Your task to perform on an android device: Show the shopping cart on target. Add "dell xps" to the cart on target, then select checkout. Image 0: 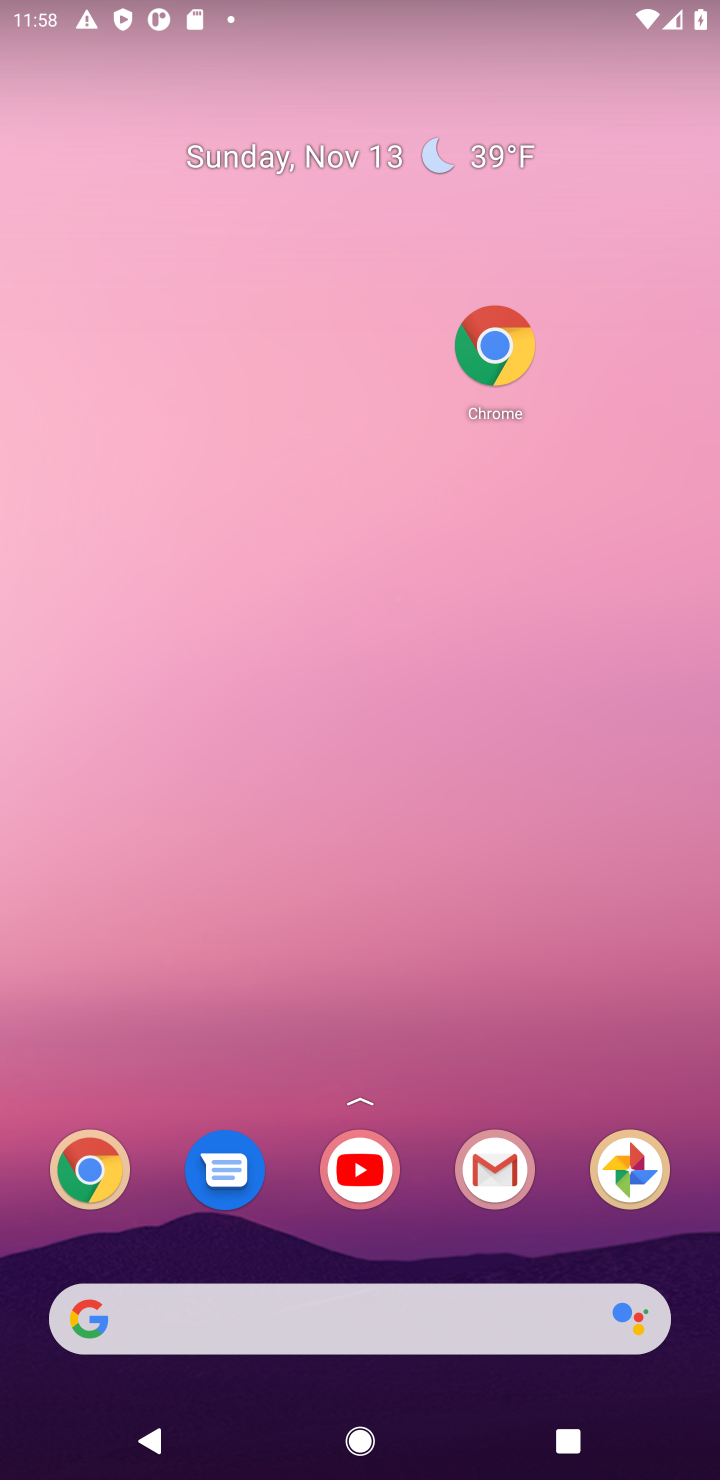
Step 0: drag from (200, 279) to (243, 122)
Your task to perform on an android device: Show the shopping cart on target. Add "dell xps" to the cart on target, then select checkout. Image 1: 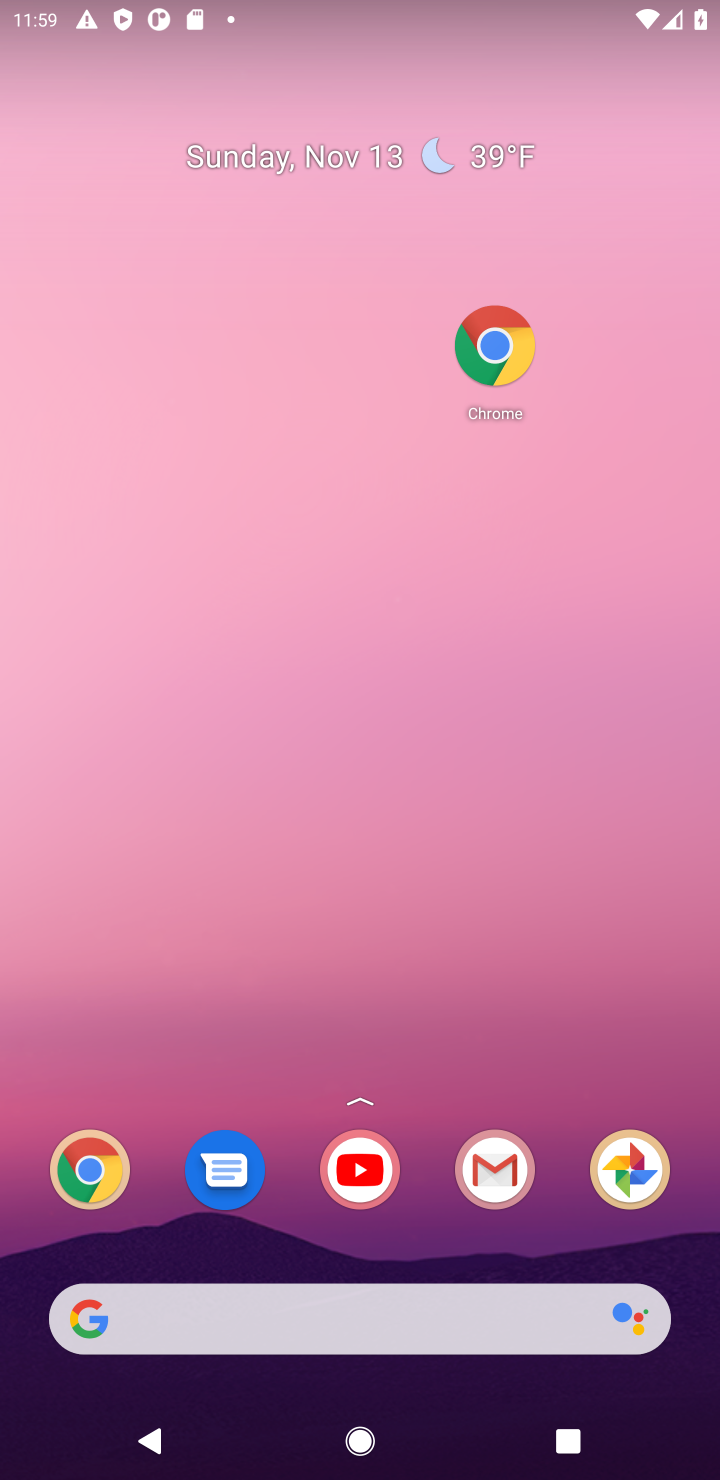
Step 1: drag from (395, 634) to (457, 0)
Your task to perform on an android device: Show the shopping cart on target. Add "dell xps" to the cart on target, then select checkout. Image 2: 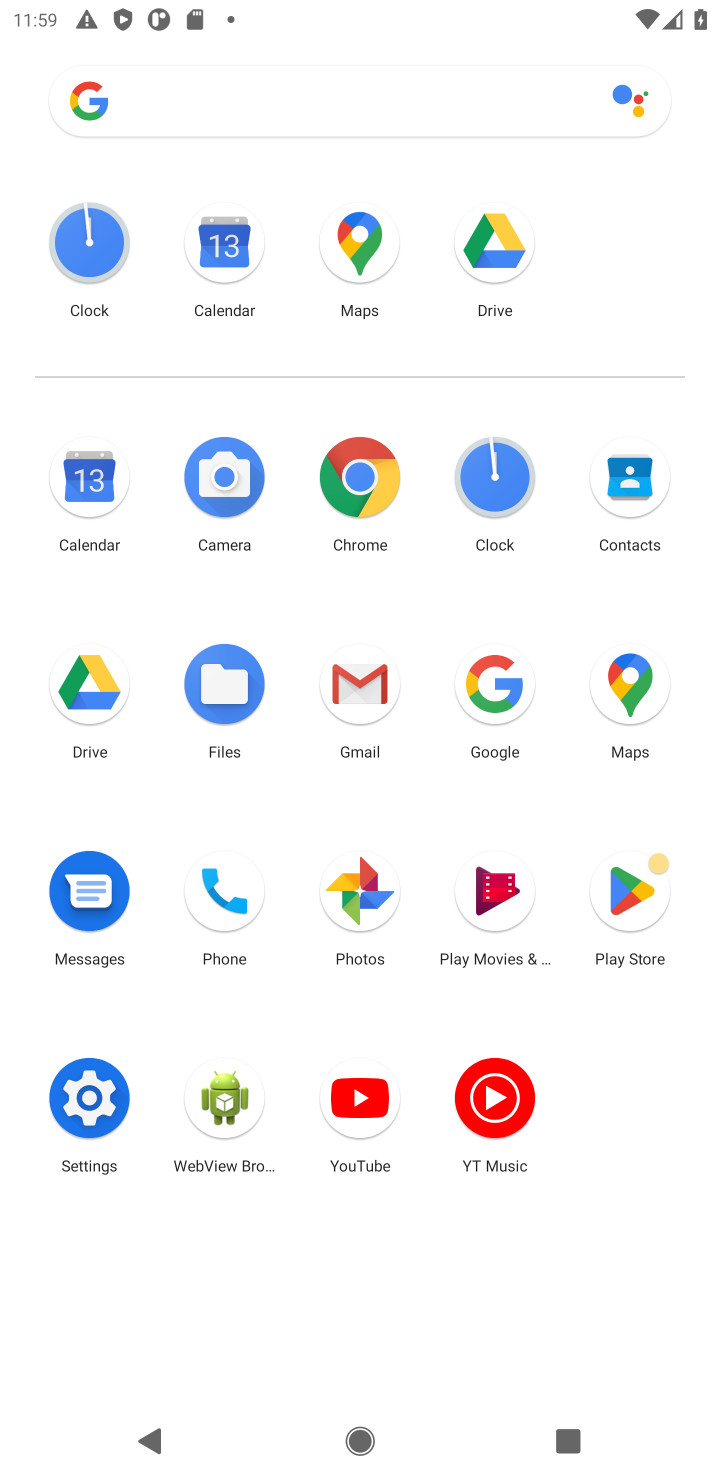
Step 2: click (343, 472)
Your task to perform on an android device: Show the shopping cart on target. Add "dell xps" to the cart on target, then select checkout. Image 3: 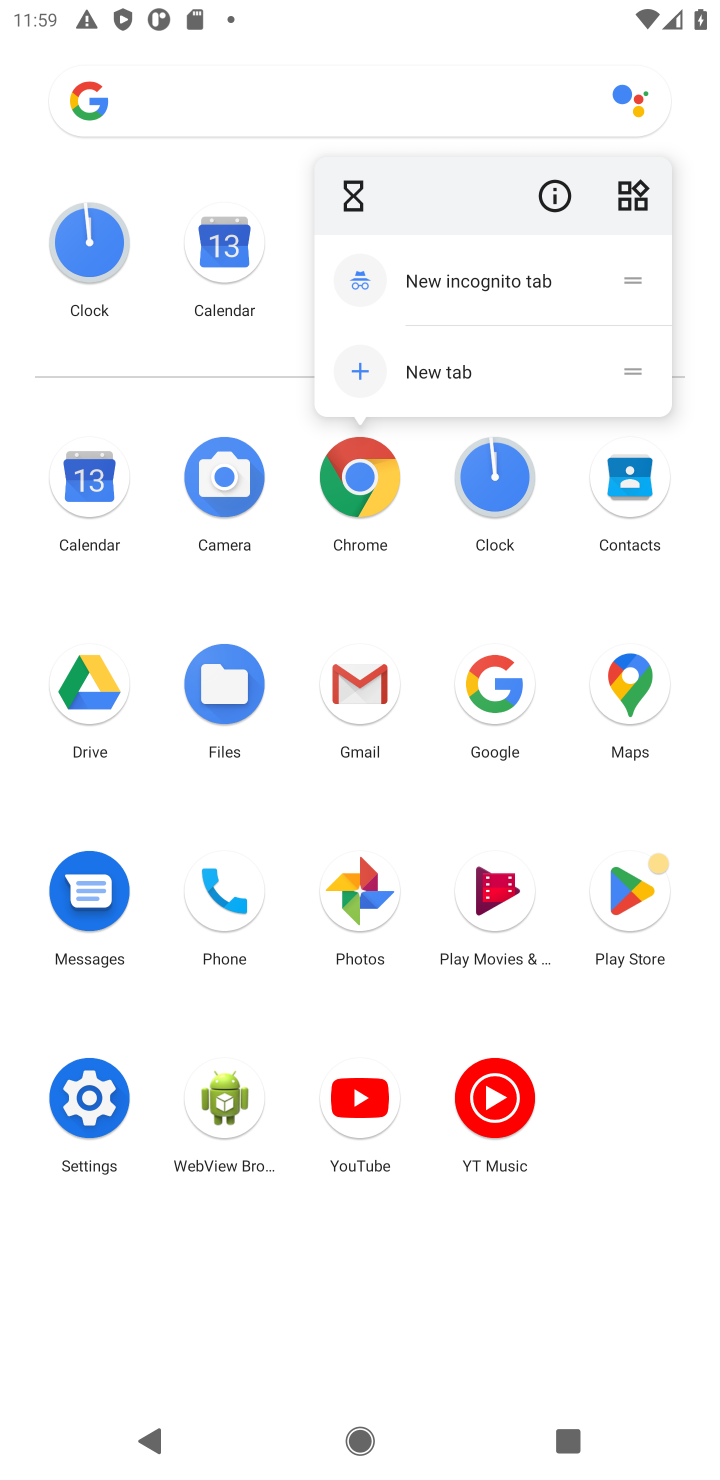
Step 3: click (348, 478)
Your task to perform on an android device: Show the shopping cart on target. Add "dell xps" to the cart on target, then select checkout. Image 4: 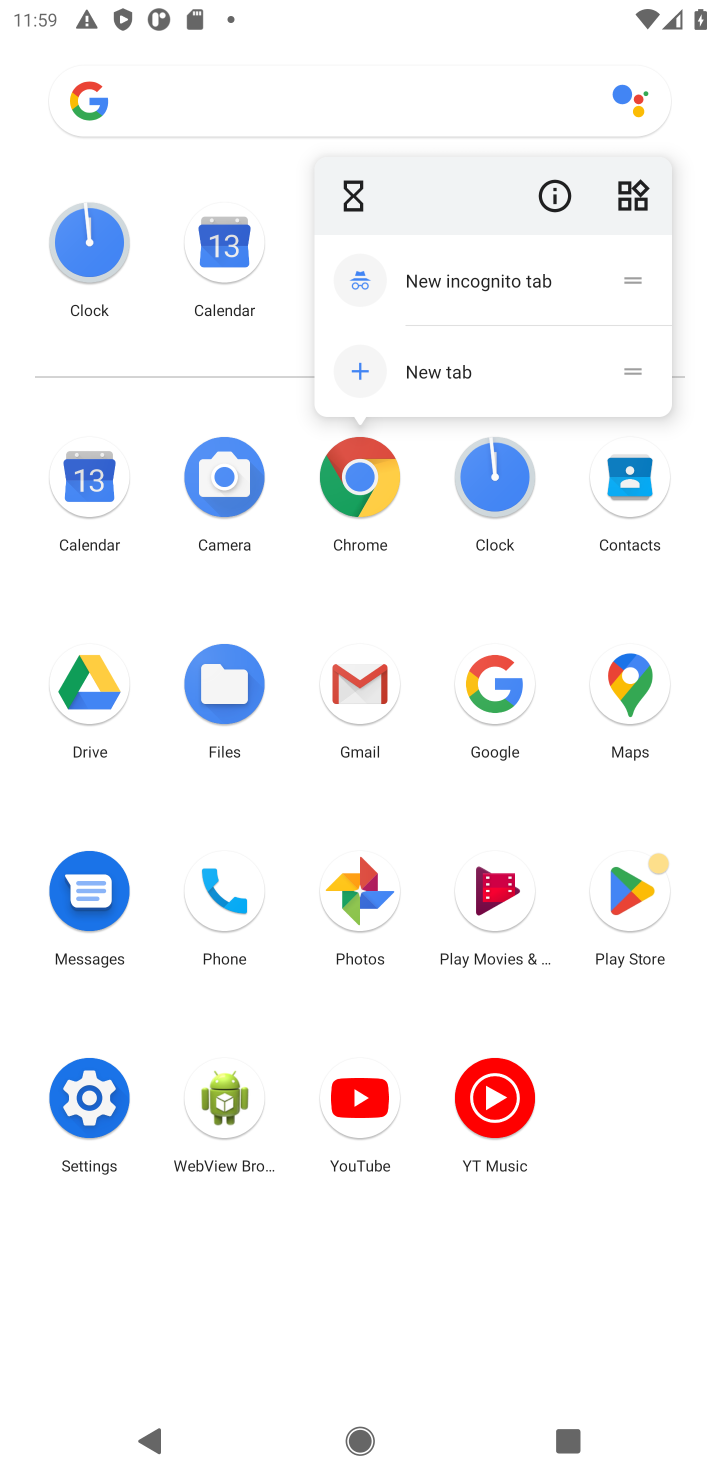
Step 4: click (350, 479)
Your task to perform on an android device: Show the shopping cart on target. Add "dell xps" to the cart on target, then select checkout. Image 5: 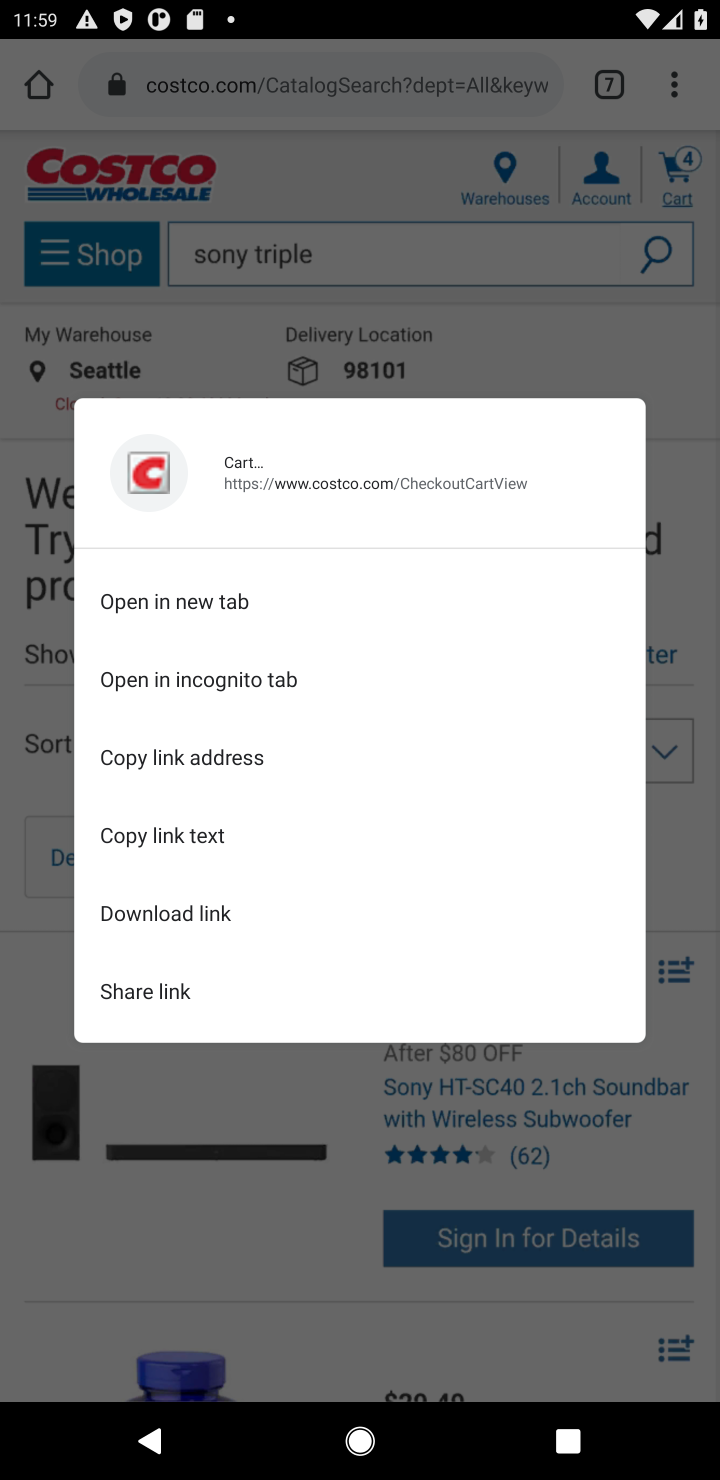
Step 5: click (305, 67)
Your task to perform on an android device: Show the shopping cart on target. Add "dell xps" to the cart on target, then select checkout. Image 6: 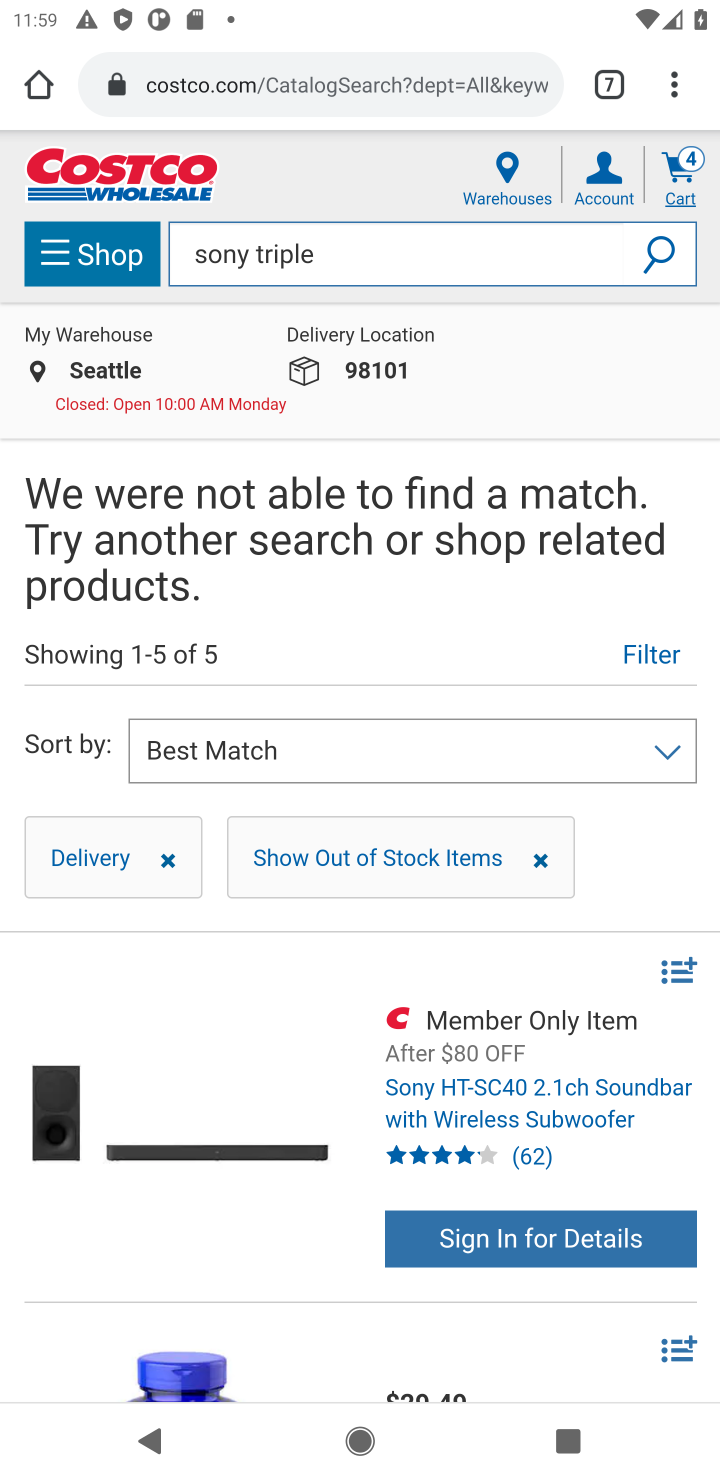
Step 6: click (310, 95)
Your task to perform on an android device: Show the shopping cart on target. Add "dell xps" to the cart on target, then select checkout. Image 7: 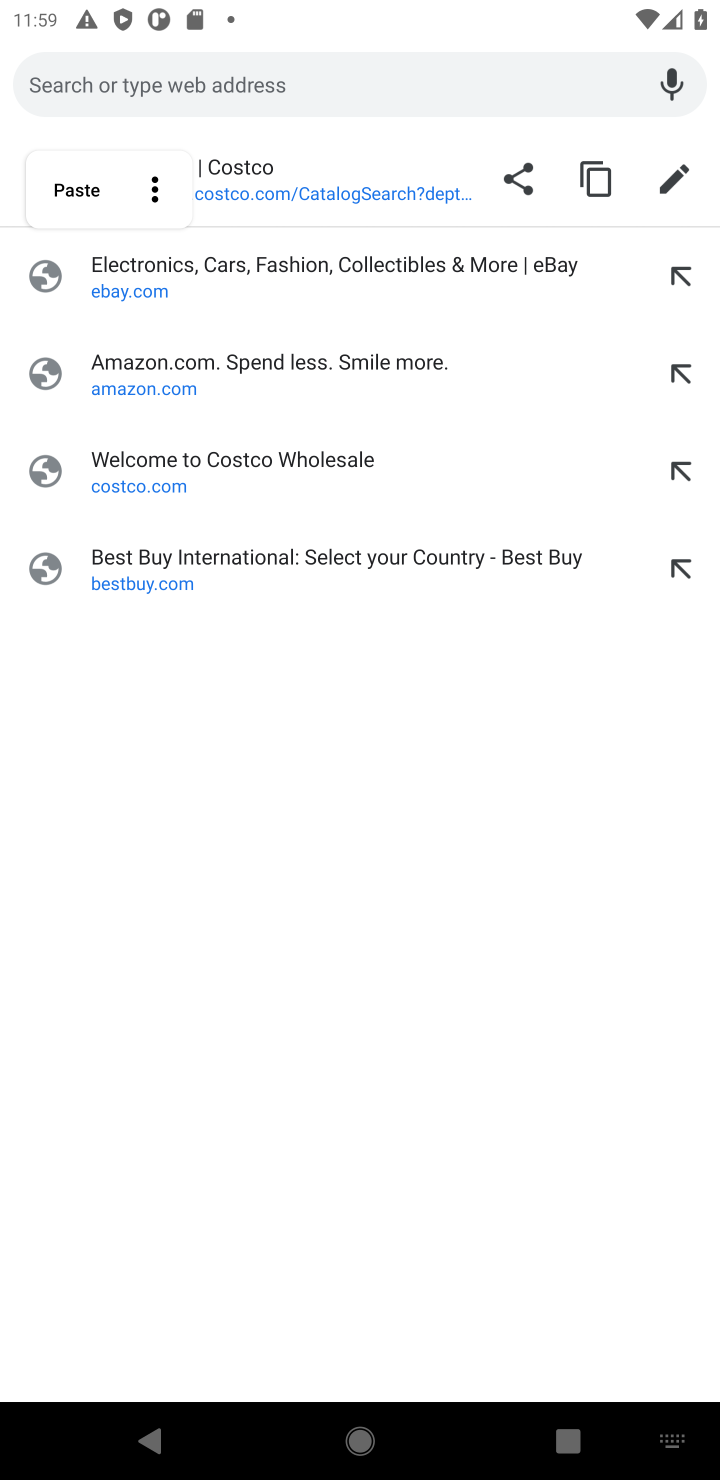
Step 7: click (289, 989)
Your task to perform on an android device: Show the shopping cart on target. Add "dell xps" to the cart on target, then select checkout. Image 8: 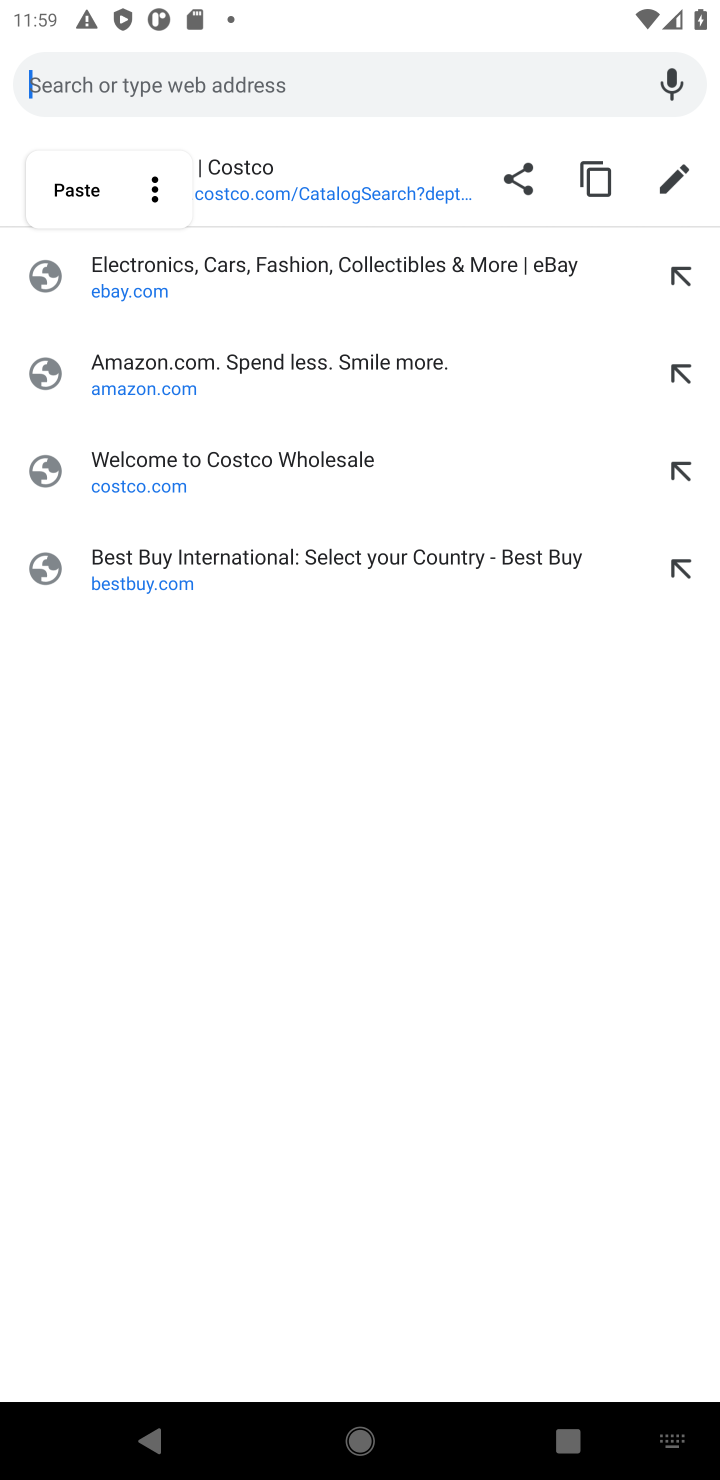
Step 8: type ""
Your task to perform on an android device: Show the shopping cart on target. Add "dell xps" to the cart on target, then select checkout. Image 9: 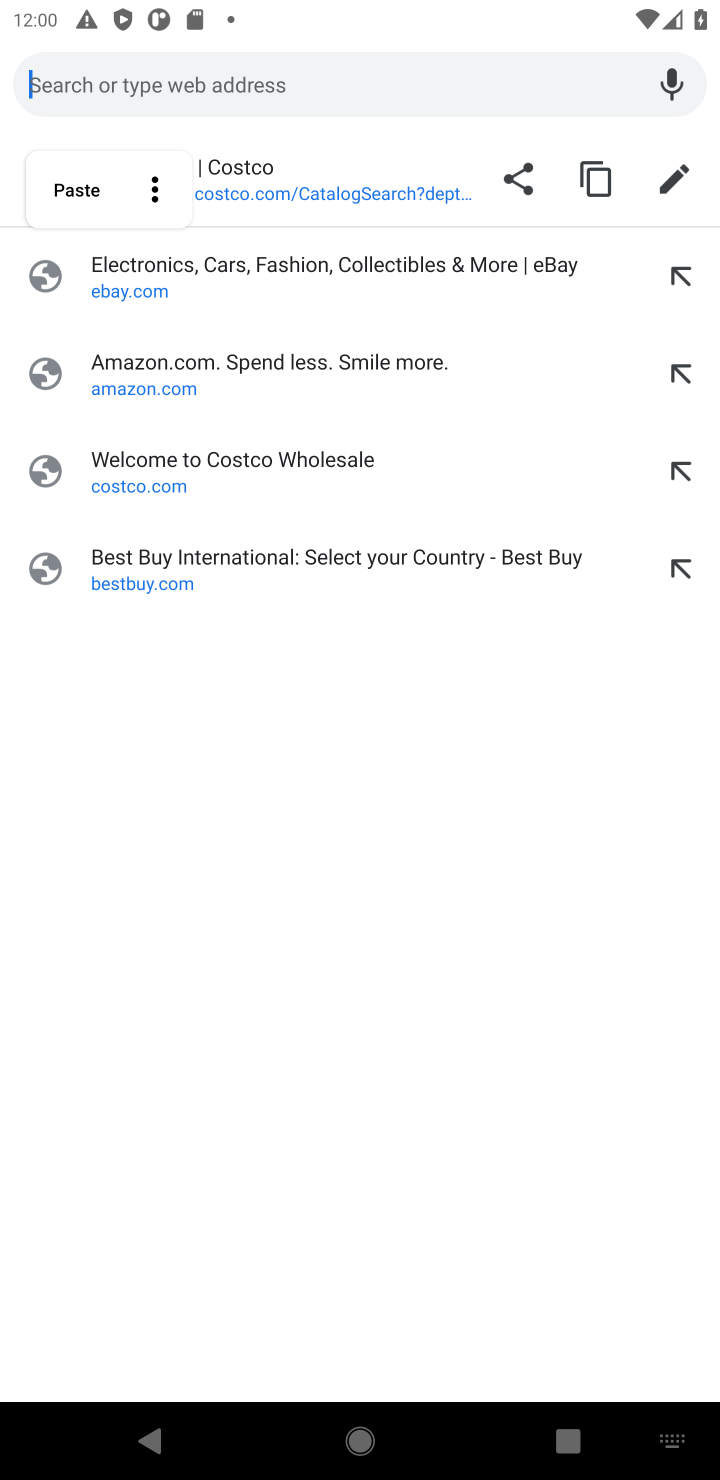
Step 9: type "sony triple"
Your task to perform on an android device: Show the shopping cart on target. Add "dell xps" to the cart on target, then select checkout. Image 10: 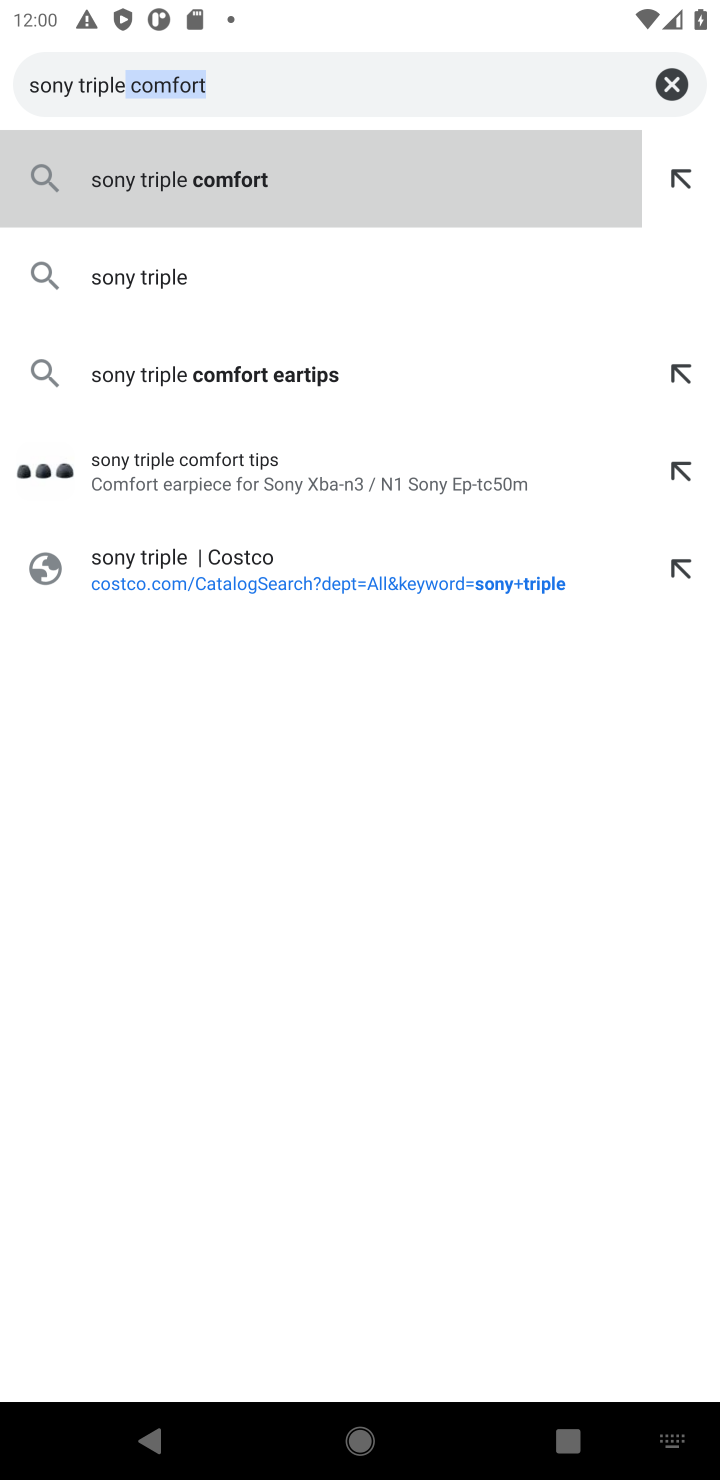
Step 10: press enter
Your task to perform on an android device: Show the shopping cart on target. Add "dell xps" to the cart on target, then select checkout. Image 11: 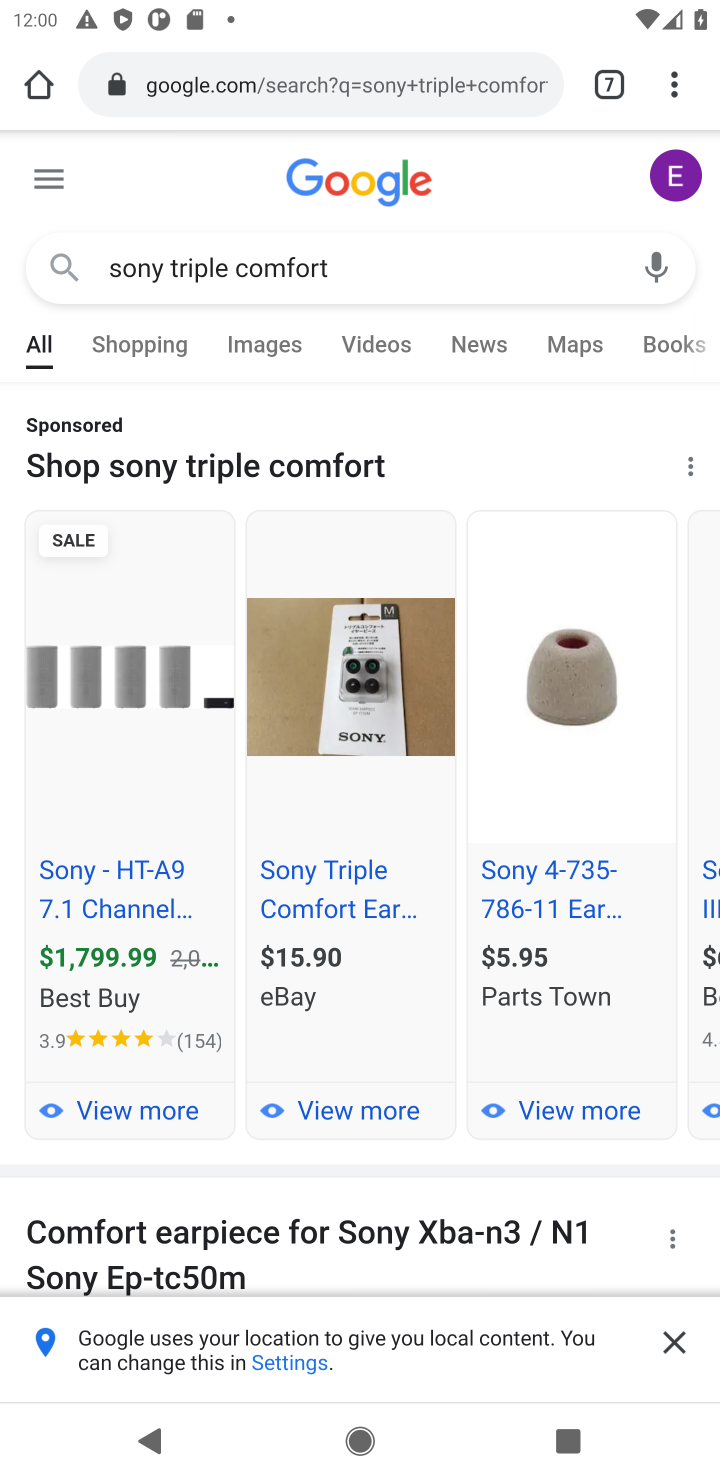
Step 11: drag from (492, 866) to (563, 323)
Your task to perform on an android device: Show the shopping cart on target. Add "dell xps" to the cart on target, then select checkout. Image 12: 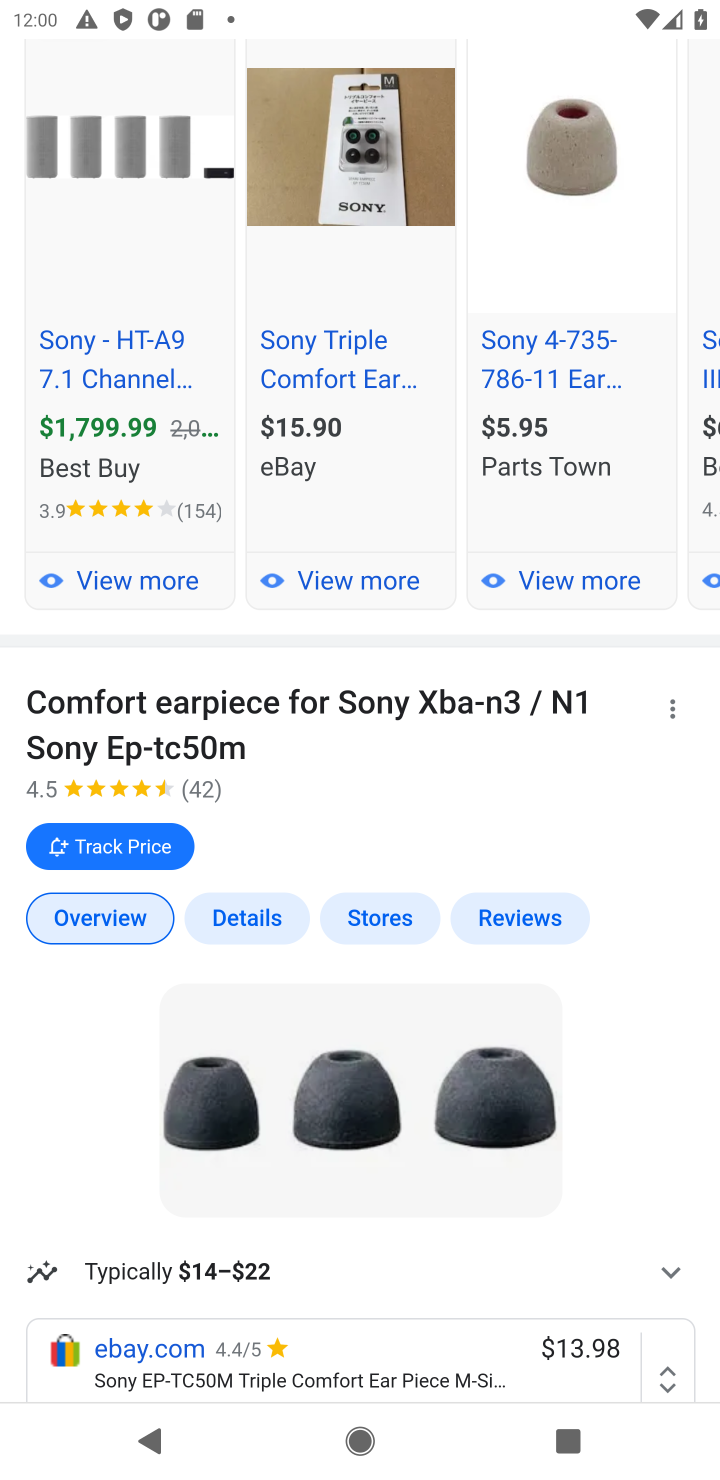
Step 12: click (446, 965)
Your task to perform on an android device: Show the shopping cart on target. Add "dell xps" to the cart on target, then select checkout. Image 13: 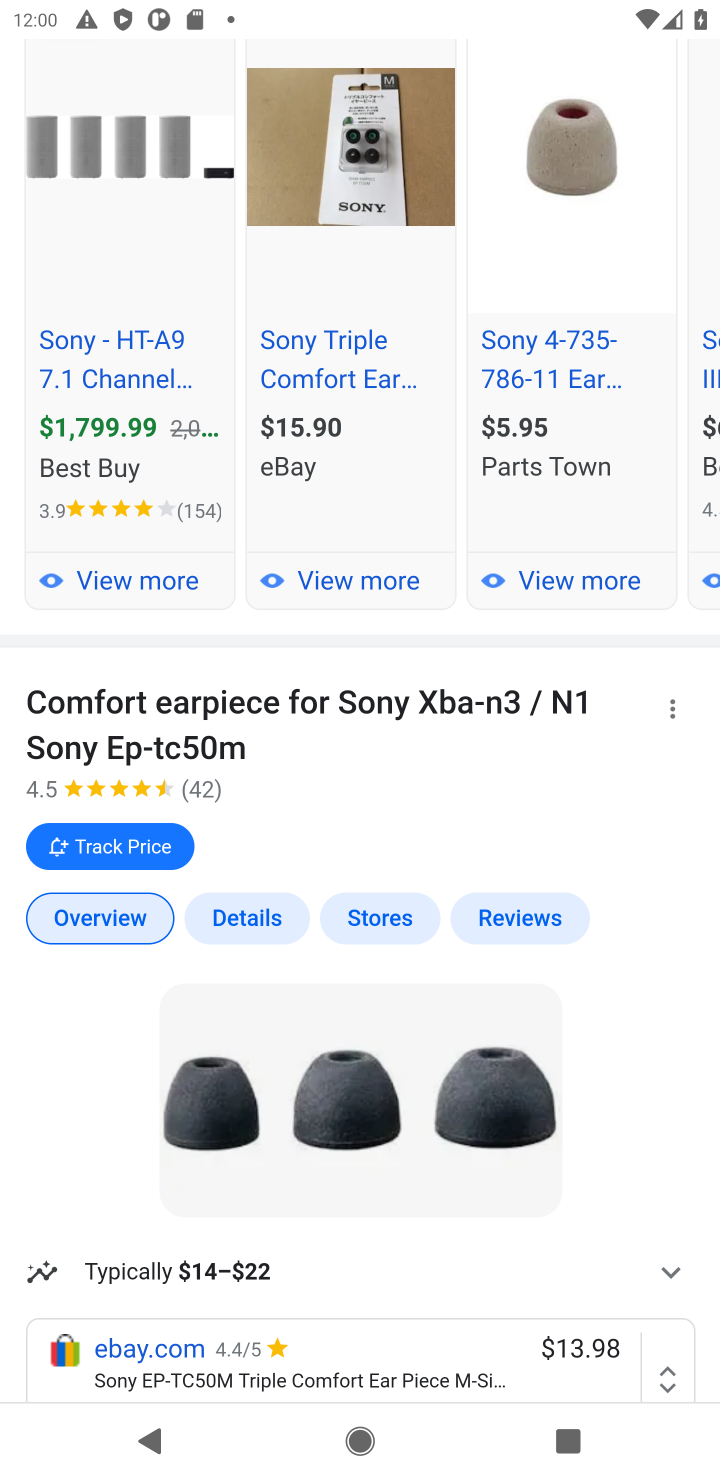
Step 13: drag from (432, 714) to (402, 1043)
Your task to perform on an android device: Show the shopping cart on target. Add "dell xps" to the cart on target, then select checkout. Image 14: 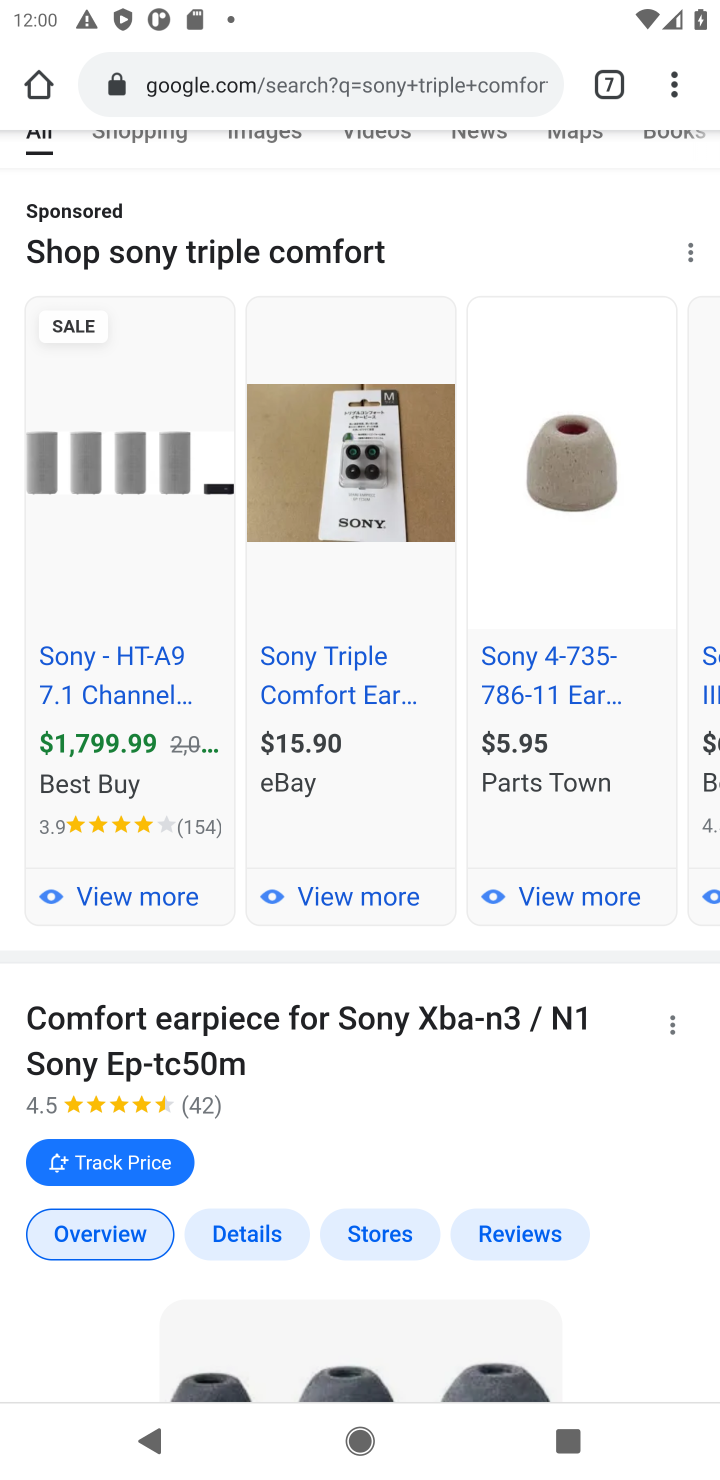
Step 14: drag from (505, 681) to (451, 1119)
Your task to perform on an android device: Show the shopping cart on target. Add "dell xps" to the cart on target, then select checkout. Image 15: 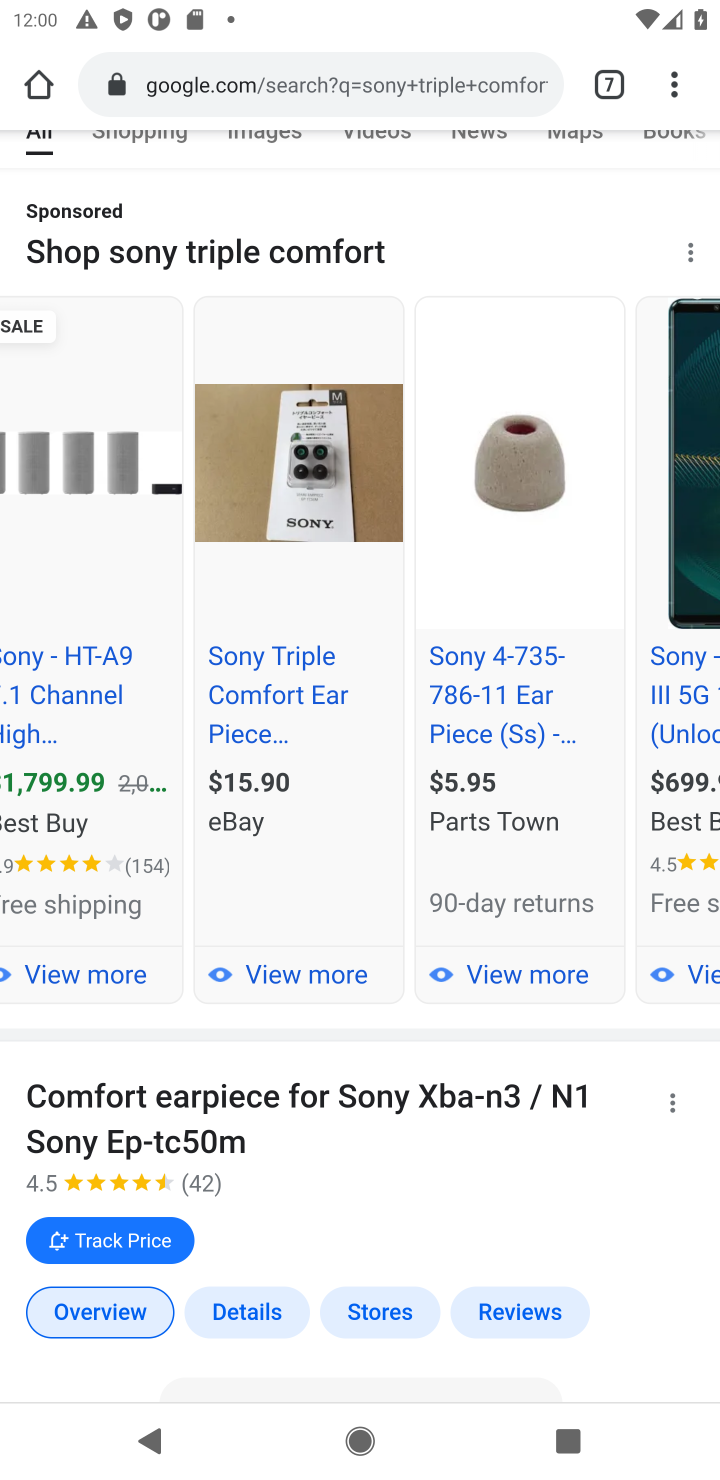
Step 15: drag from (416, 506) to (455, 1030)
Your task to perform on an android device: Show the shopping cart on target. Add "dell xps" to the cart on target, then select checkout. Image 16: 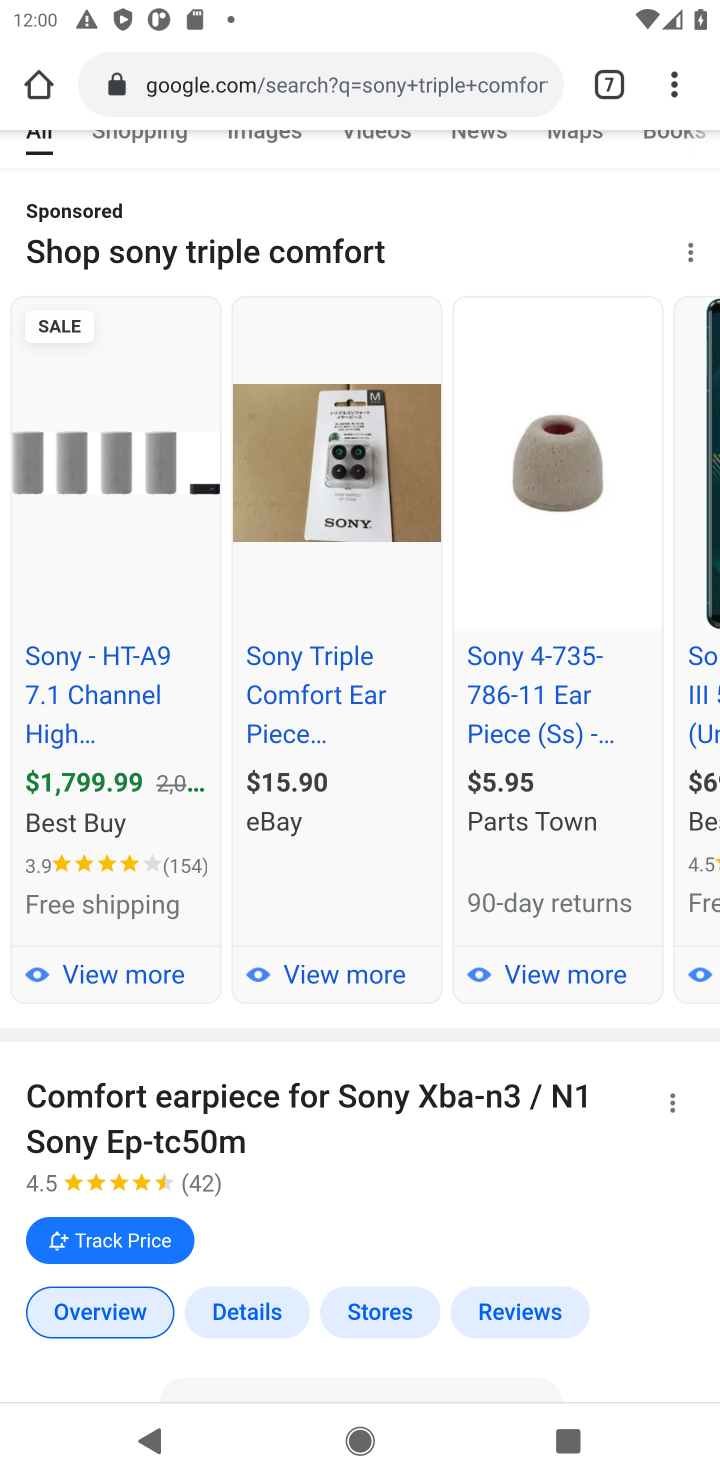
Step 16: drag from (431, 387) to (447, 1047)
Your task to perform on an android device: Show the shopping cart on target. Add "dell xps" to the cart on target, then select checkout. Image 17: 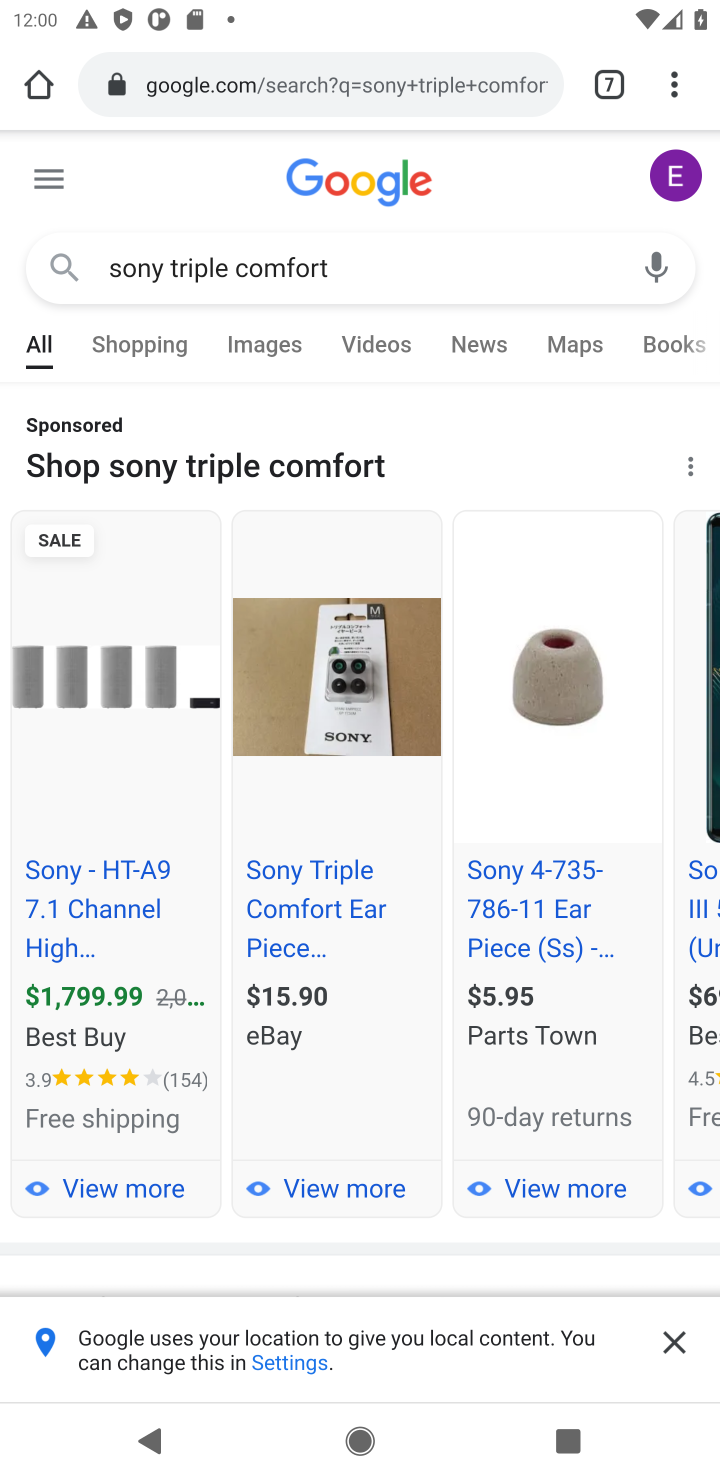
Step 17: drag from (554, 646) to (517, 947)
Your task to perform on an android device: Show the shopping cart on target. Add "dell xps" to the cart on target, then select checkout. Image 18: 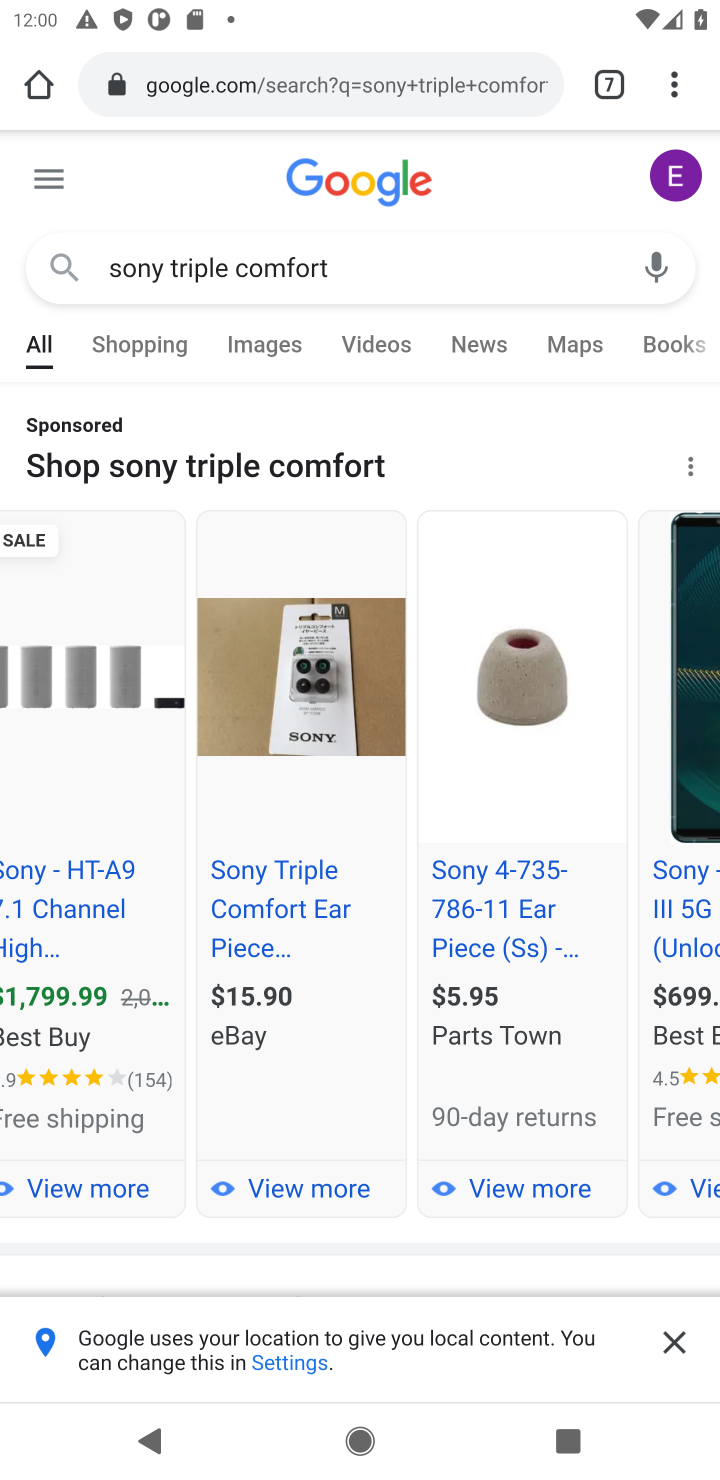
Step 18: click (456, 100)
Your task to perform on an android device: Show the shopping cart on target. Add "dell xps" to the cart on target, then select checkout. Image 19: 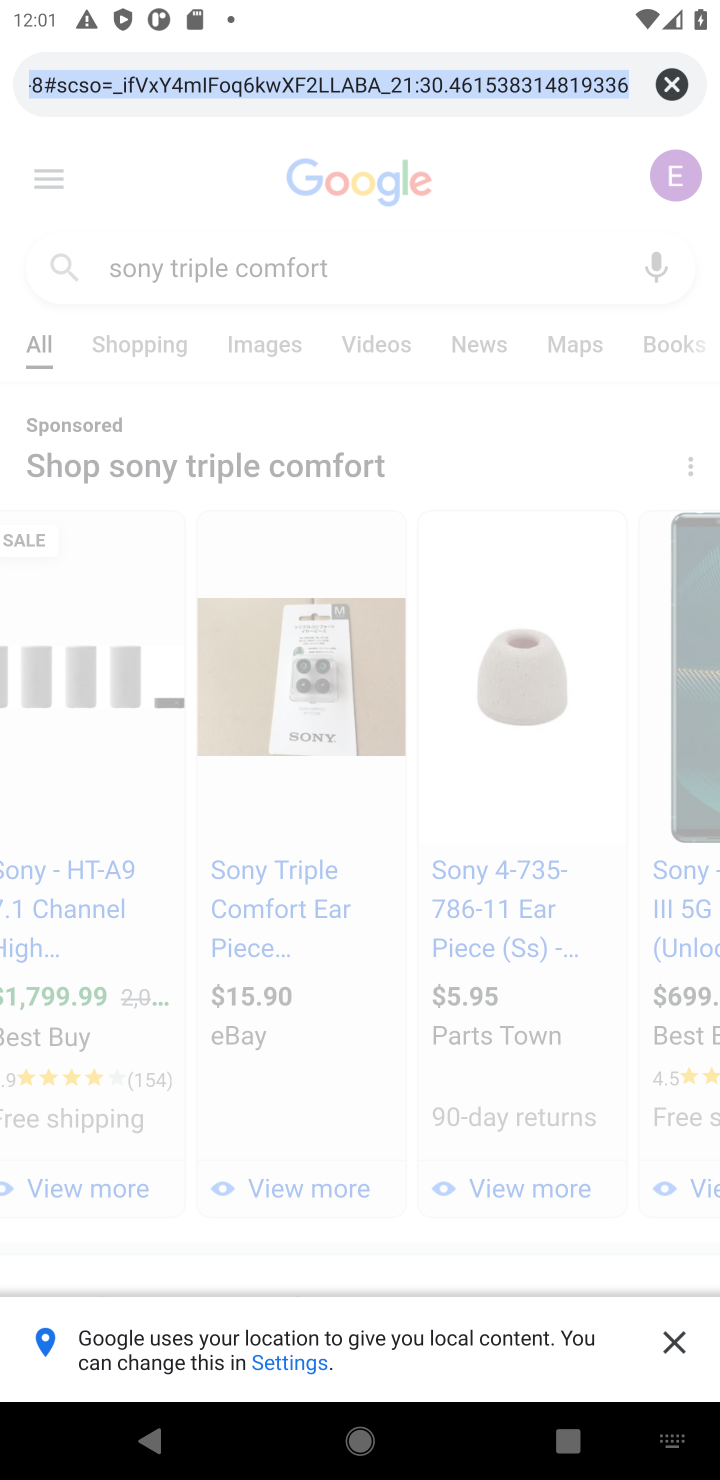
Step 19: click (676, 77)
Your task to perform on an android device: Show the shopping cart on target. Add "dell xps" to the cart on target, then select checkout. Image 20: 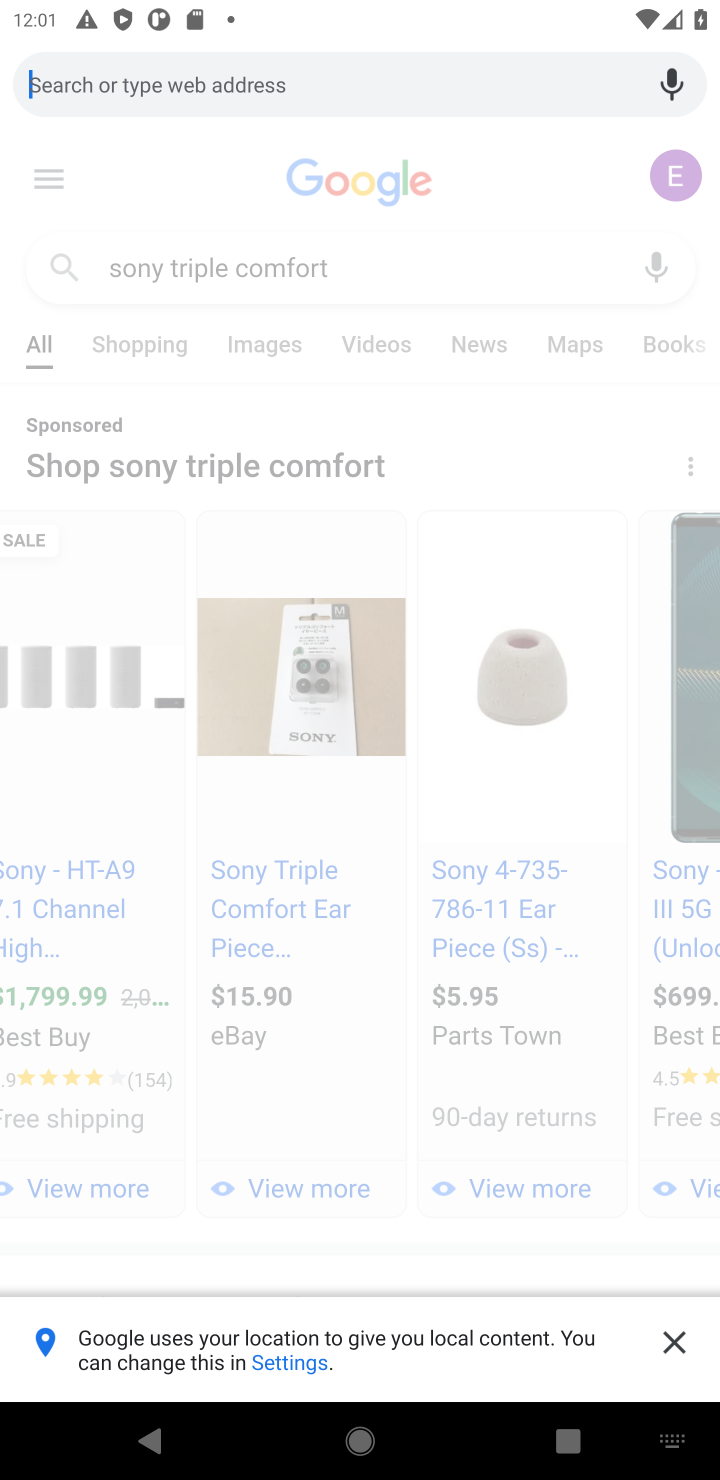
Step 20: type "target"
Your task to perform on an android device: Show the shopping cart on target. Add "dell xps" to the cart on target, then select checkout. Image 21: 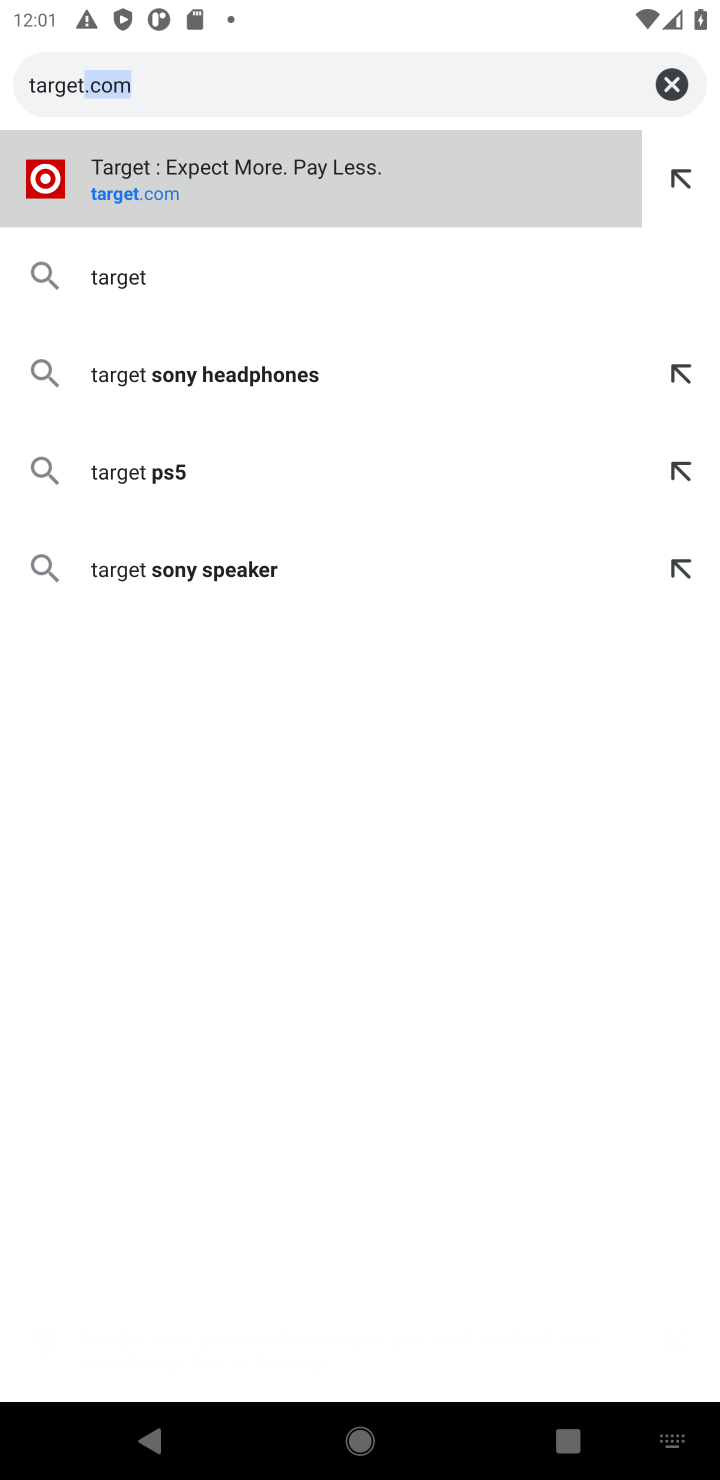
Step 21: press enter
Your task to perform on an android device: Show the shopping cart on target. Add "dell xps" to the cart on target, then select checkout. Image 22: 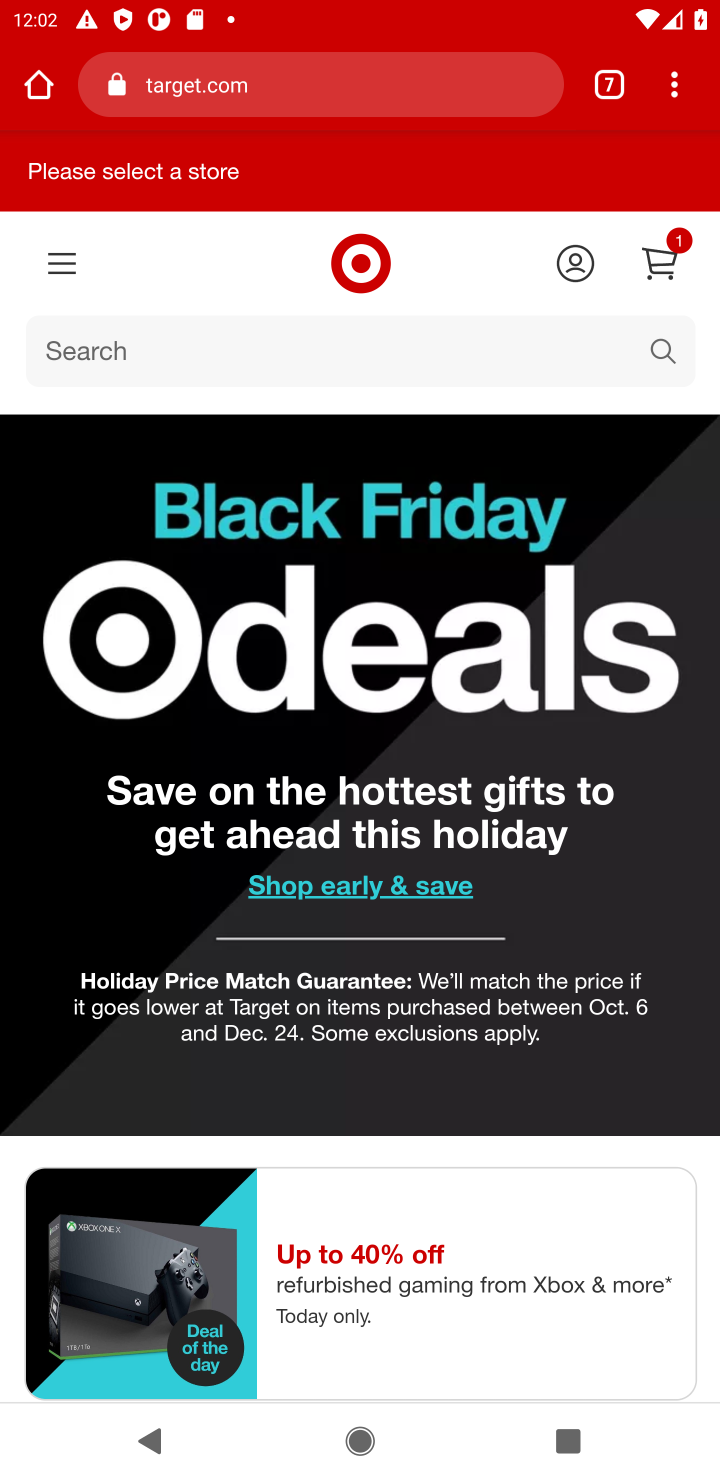
Step 22: click (239, 344)
Your task to perform on an android device: Show the shopping cart on target. Add "dell xps" to the cart on target, then select checkout. Image 23: 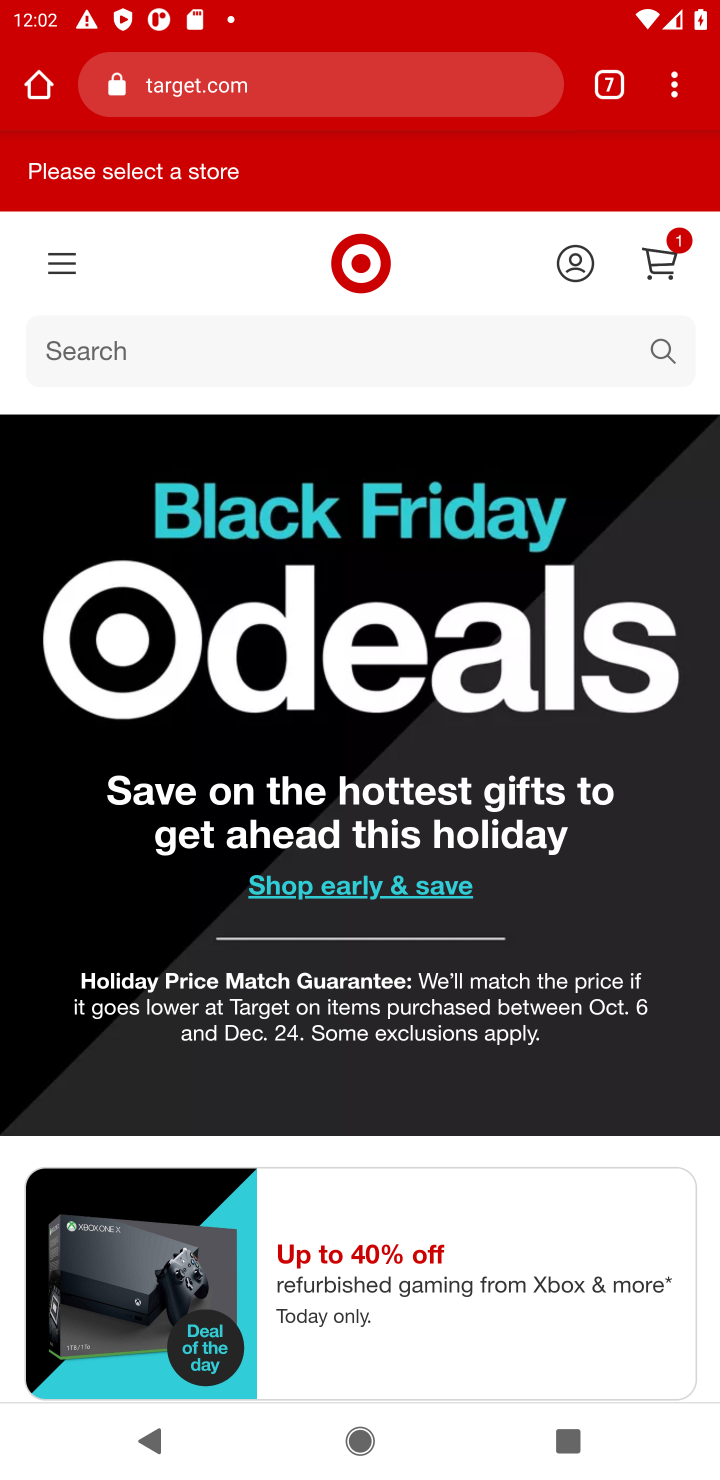
Step 23: click (179, 352)
Your task to perform on an android device: Show the shopping cart on target. Add "dell xps" to the cart on target, then select checkout. Image 24: 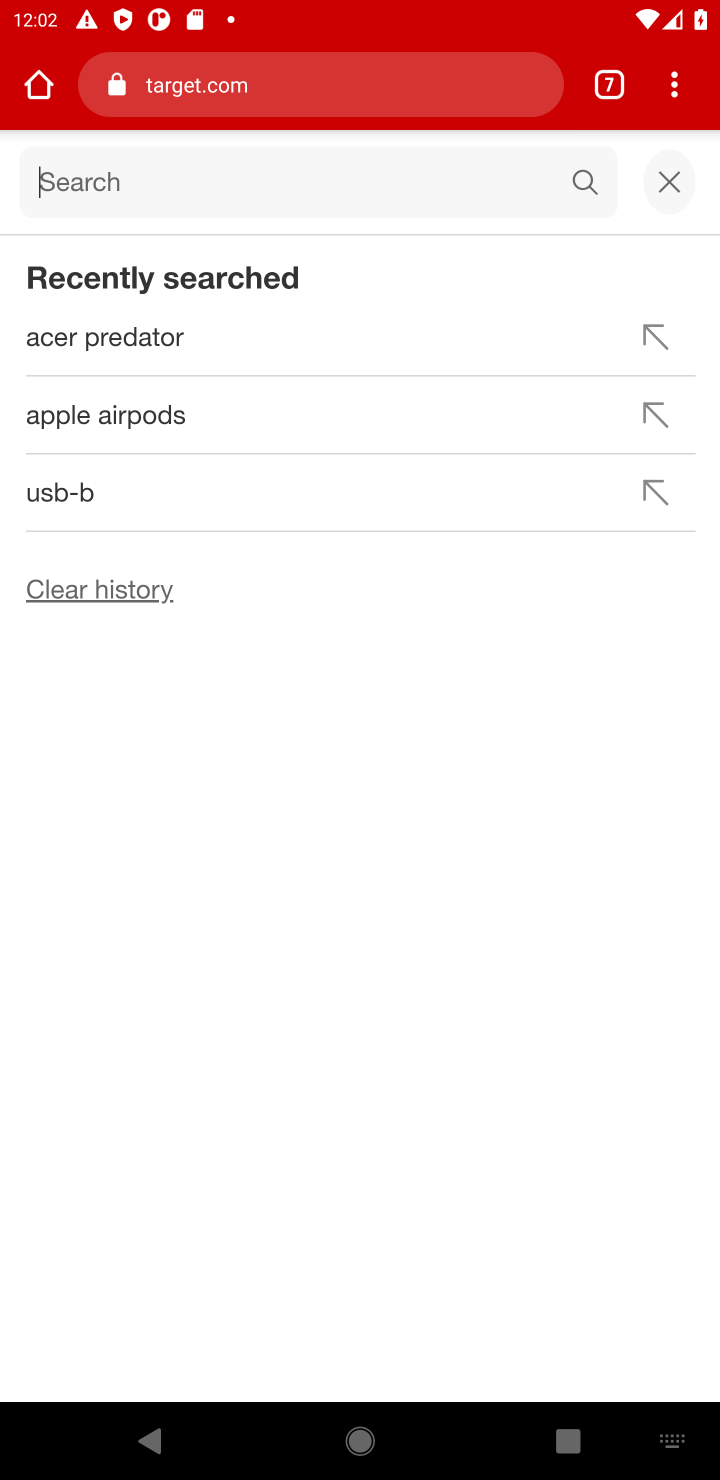
Step 24: type "dell xps"
Your task to perform on an android device: Show the shopping cart on target. Add "dell xps" to the cart on target, then select checkout. Image 25: 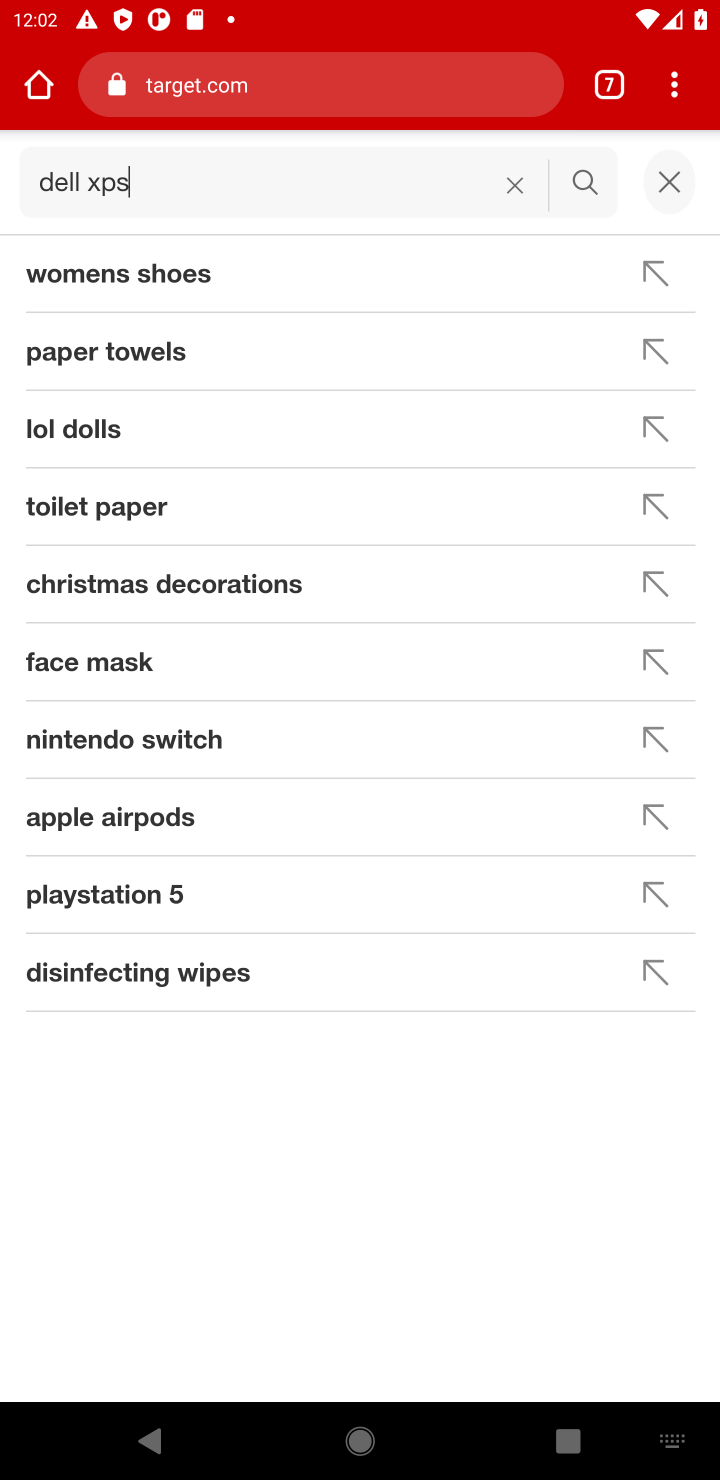
Step 25: press enter
Your task to perform on an android device: Show the shopping cart on target. Add "dell xps" to the cart on target, then select checkout. Image 26: 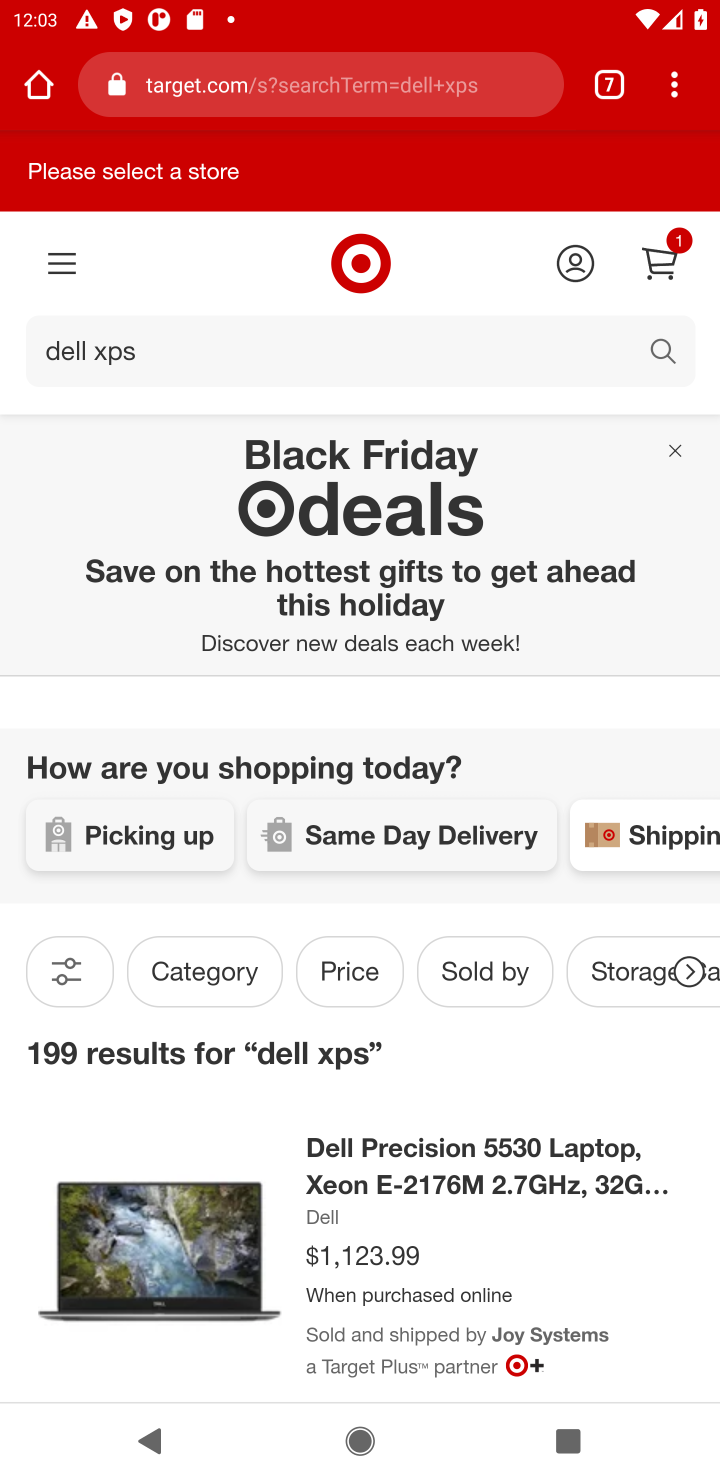
Step 26: click (403, 1140)
Your task to perform on an android device: Show the shopping cart on target. Add "dell xps" to the cart on target, then select checkout. Image 27: 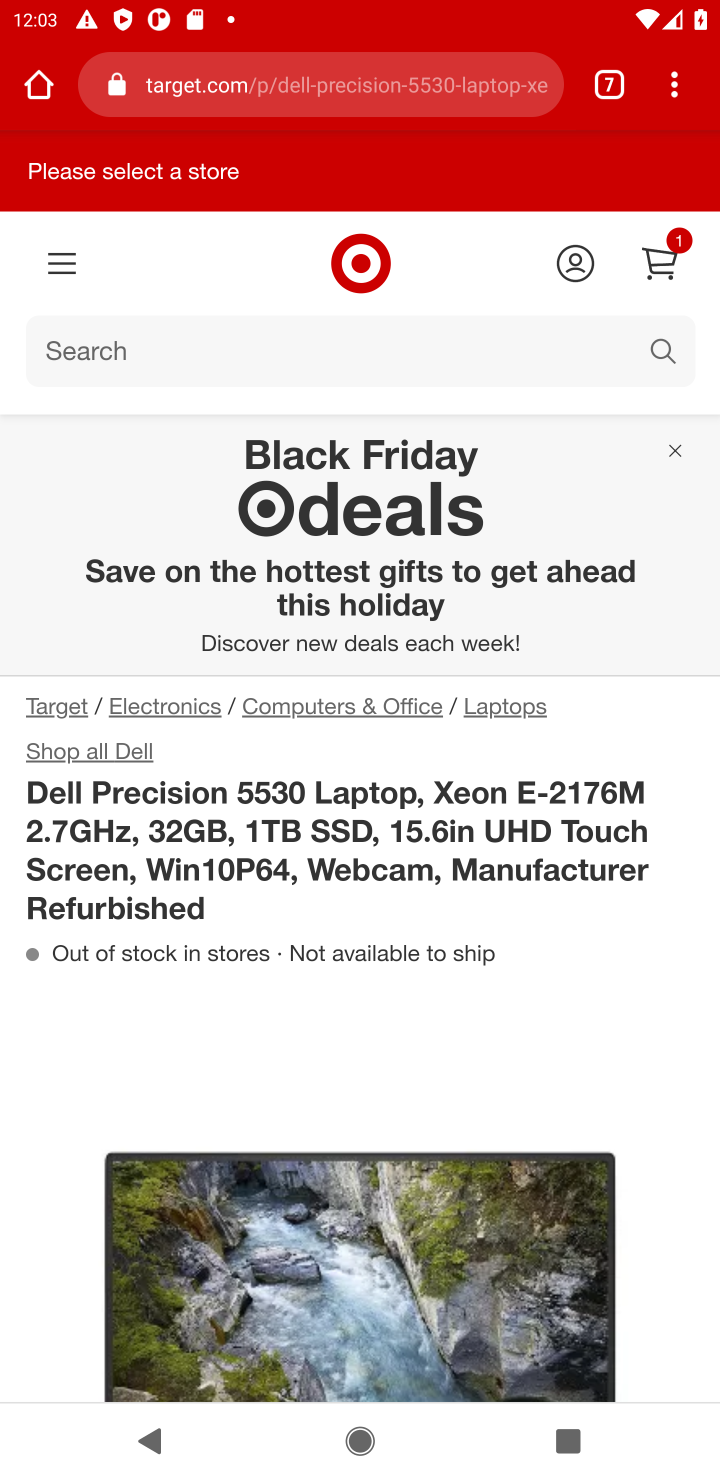
Step 27: click (363, 805)
Your task to perform on an android device: Show the shopping cart on target. Add "dell xps" to the cart on target, then select checkout. Image 28: 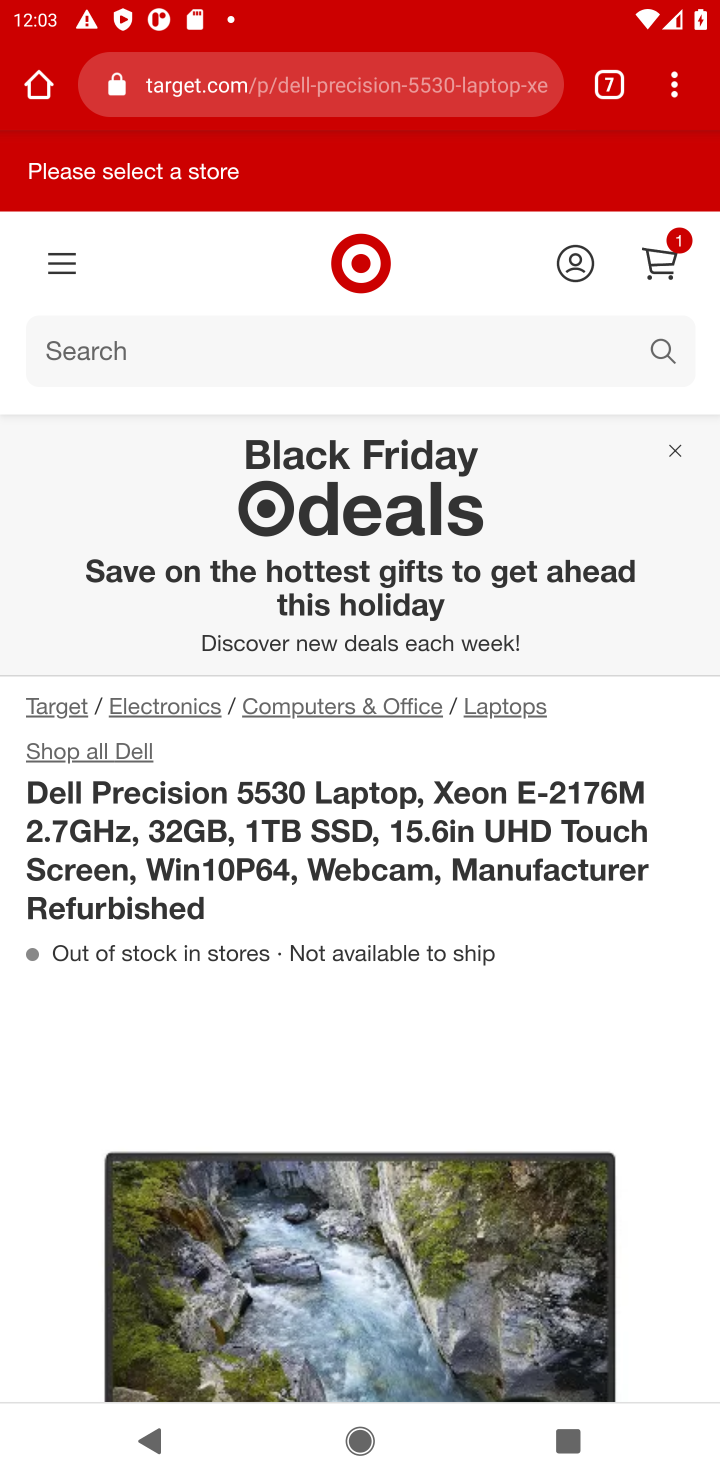
Step 28: drag from (201, 553) to (238, 372)
Your task to perform on an android device: Show the shopping cart on target. Add "dell xps" to the cart on target, then select checkout. Image 29: 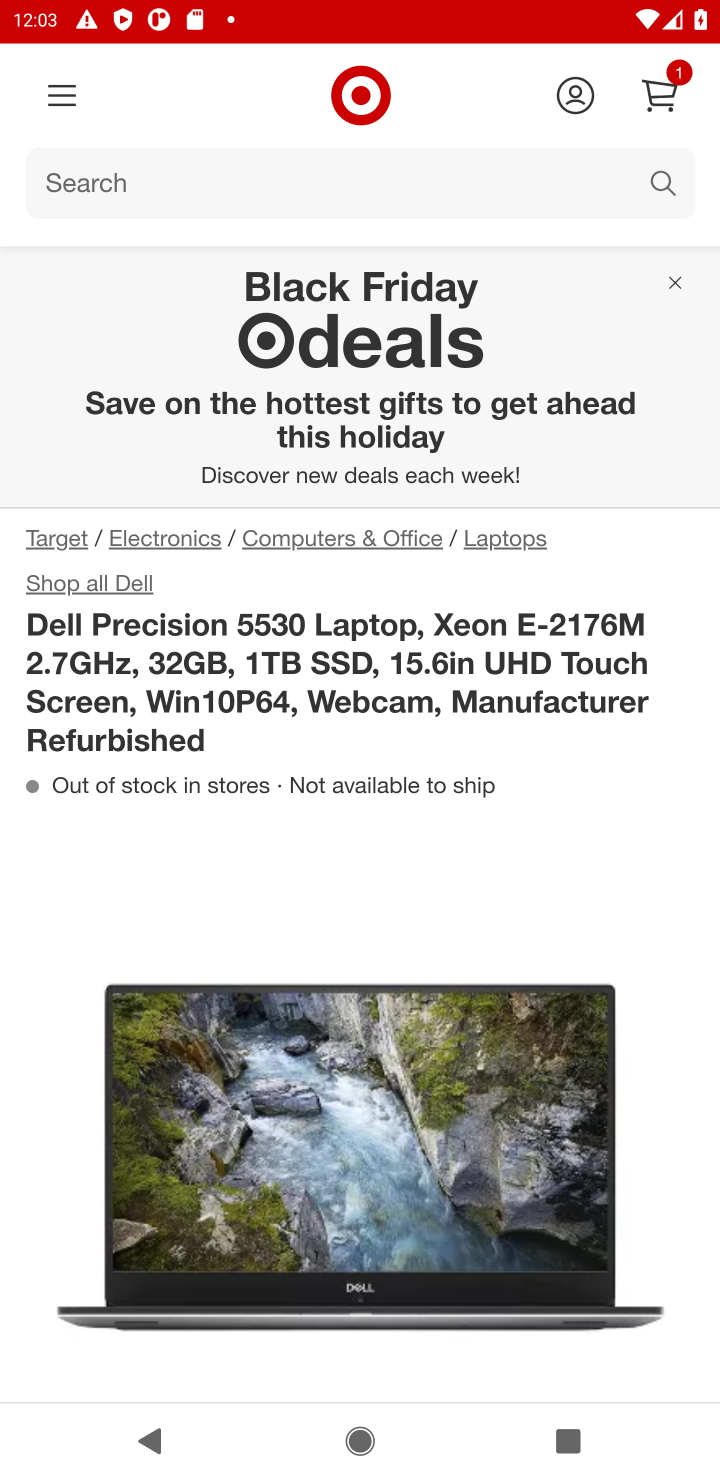
Step 29: drag from (403, 914) to (545, 218)
Your task to perform on an android device: Show the shopping cart on target. Add "dell xps" to the cart on target, then select checkout. Image 30: 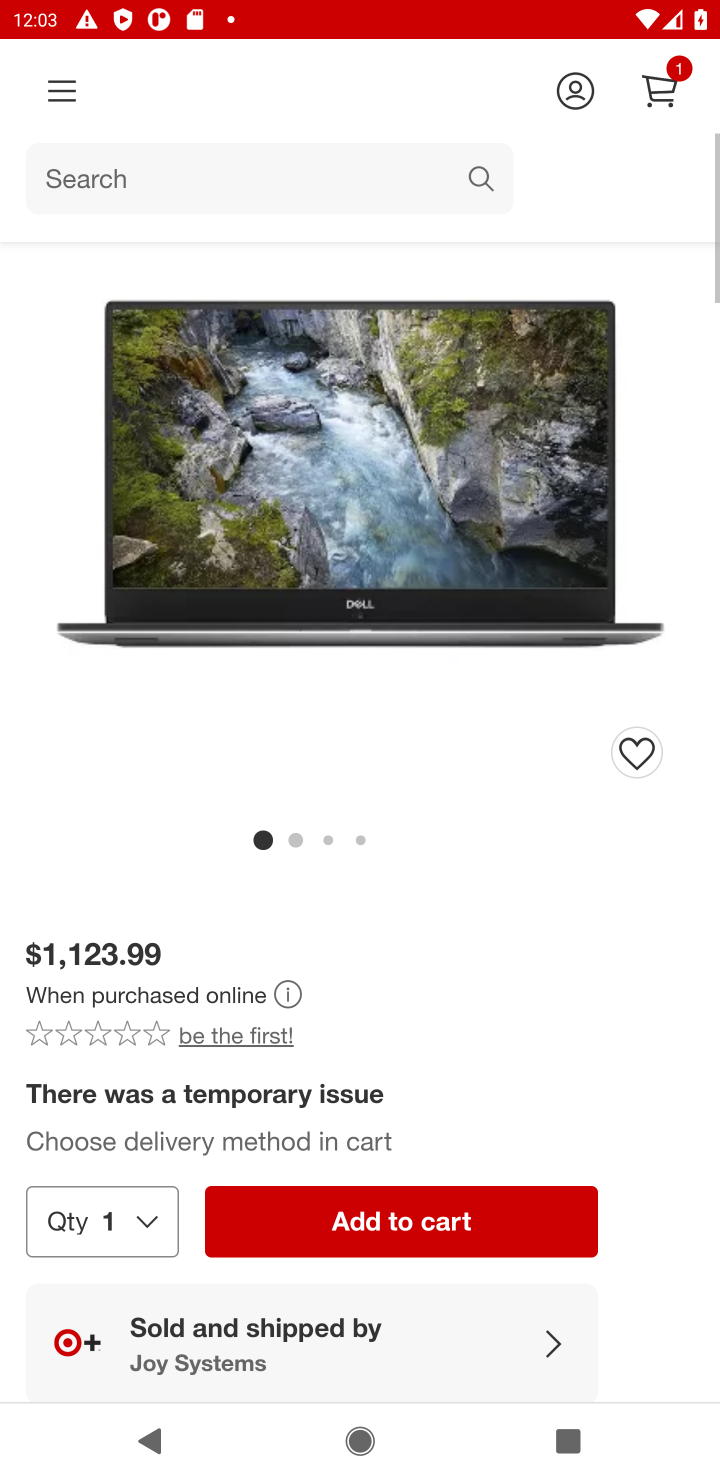
Step 30: drag from (377, 1011) to (390, 566)
Your task to perform on an android device: Show the shopping cart on target. Add "dell xps" to the cart on target, then select checkout. Image 31: 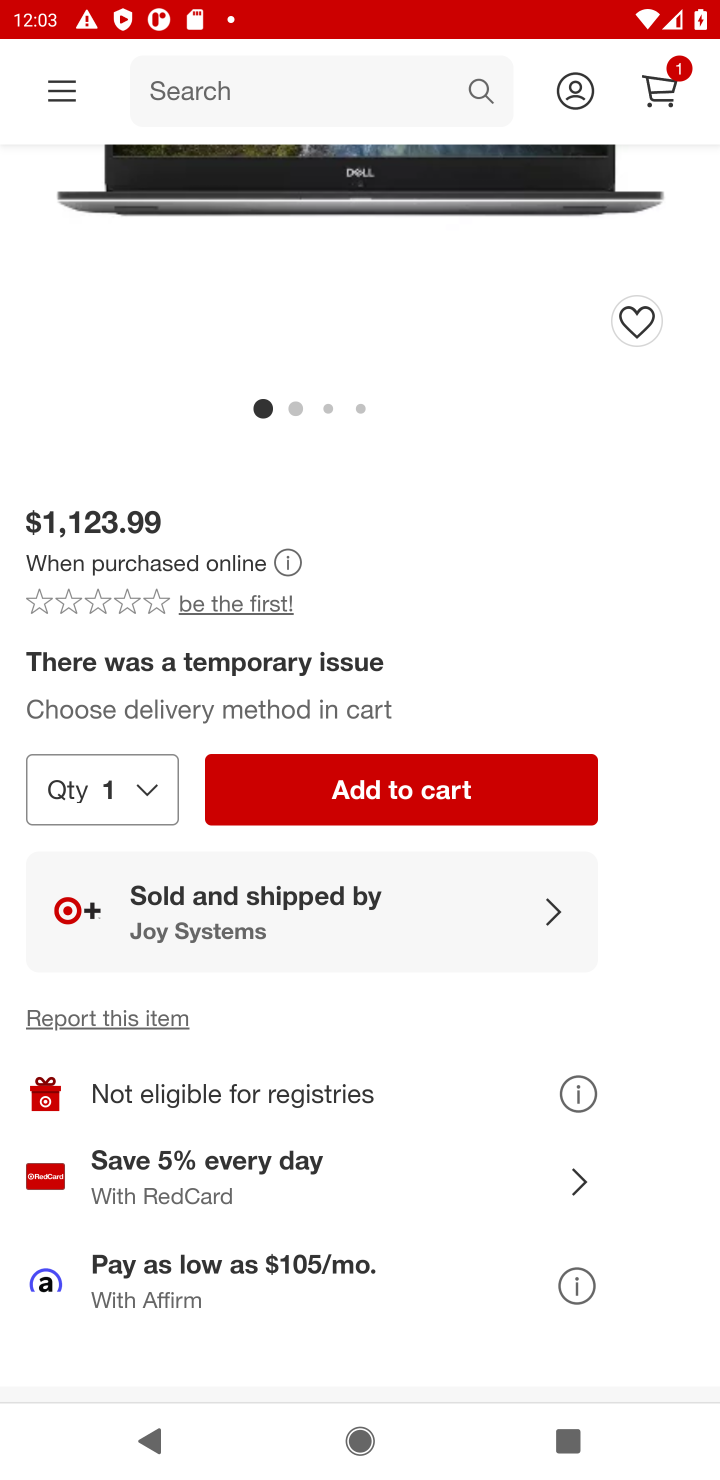
Step 31: click (478, 790)
Your task to perform on an android device: Show the shopping cart on target. Add "dell xps" to the cart on target, then select checkout. Image 32: 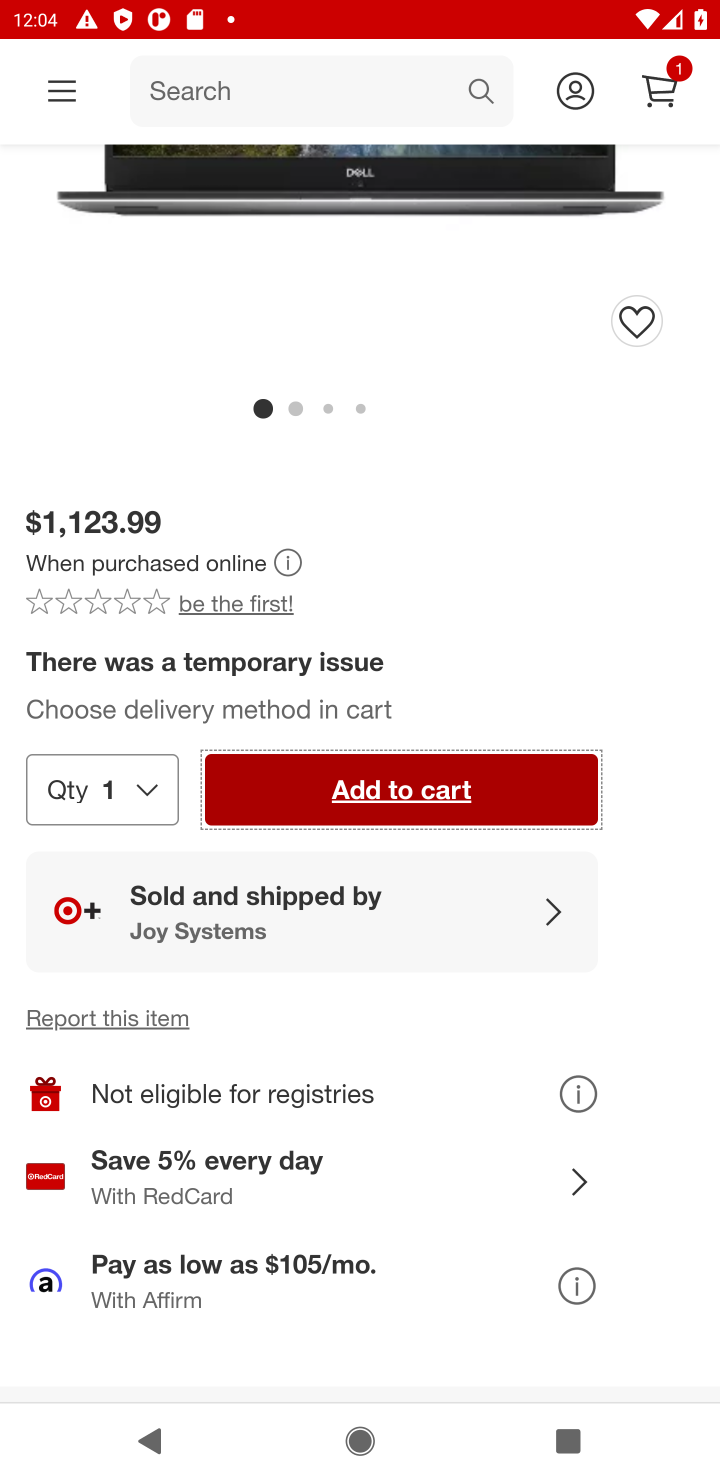
Step 32: click (350, 798)
Your task to perform on an android device: Show the shopping cart on target. Add "dell xps" to the cart on target, then select checkout. Image 33: 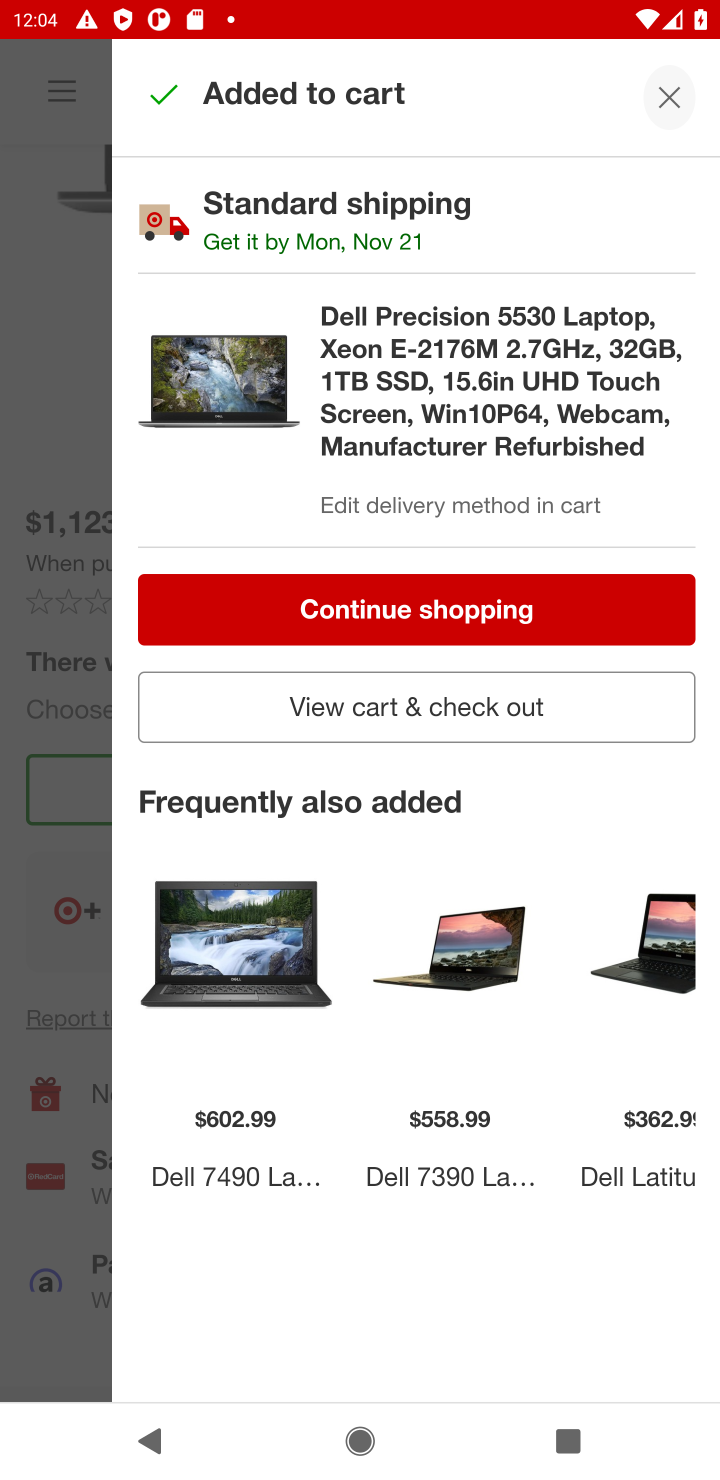
Step 33: click (447, 725)
Your task to perform on an android device: Show the shopping cart on target. Add "dell xps" to the cart on target, then select checkout. Image 34: 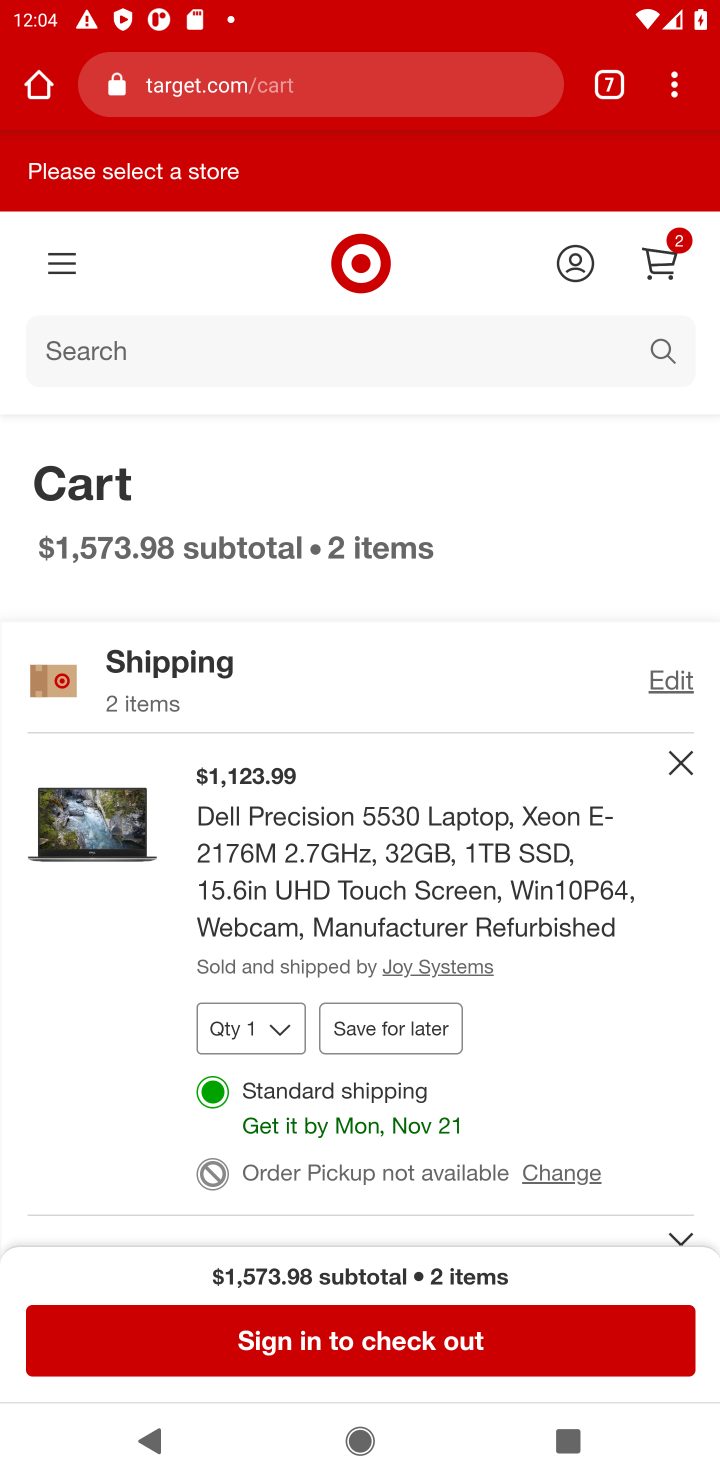
Step 34: click (264, 1352)
Your task to perform on an android device: Show the shopping cart on target. Add "dell xps" to the cart on target, then select checkout. Image 35: 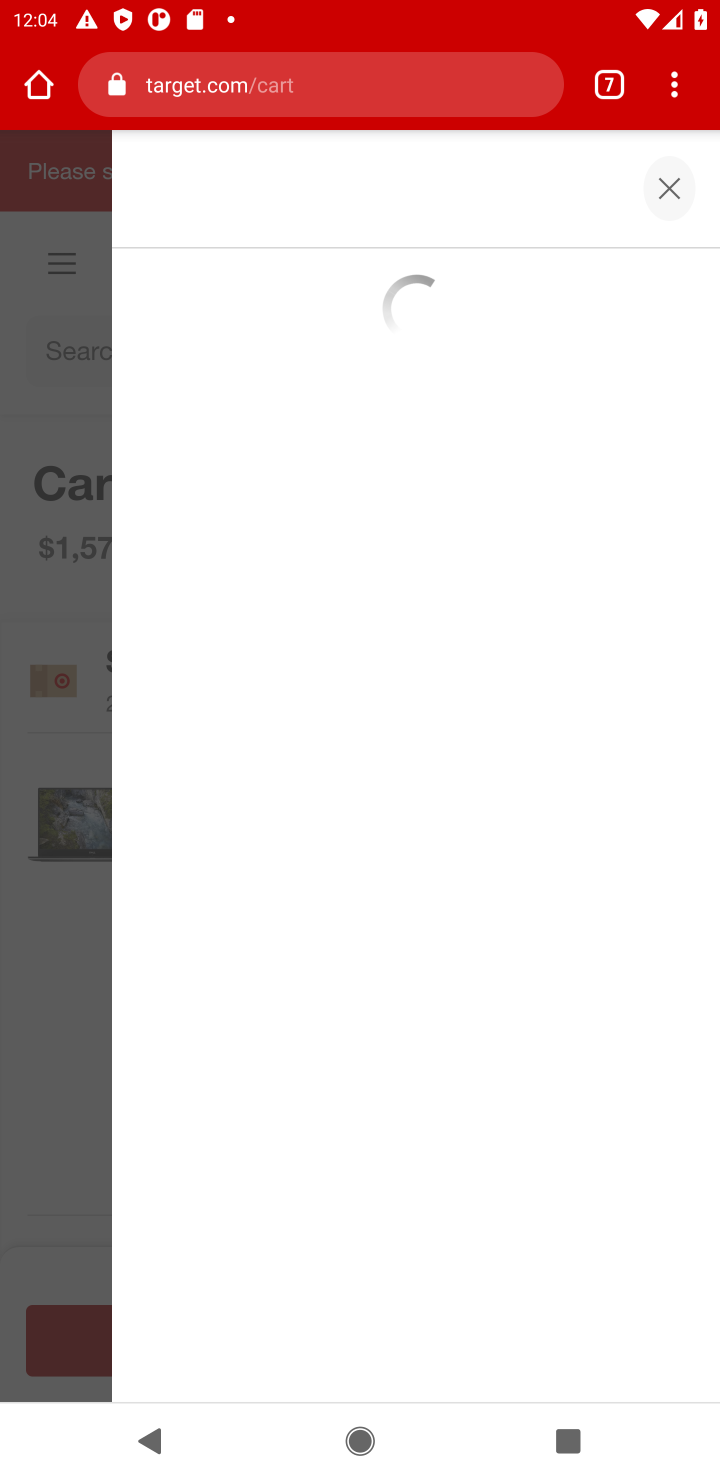
Step 35: task complete